Your task to perform on an android device: View the shopping cart on amazon.com. Add "usb-c to usb-b" to the cart on amazon.com, then select checkout. Image 0: 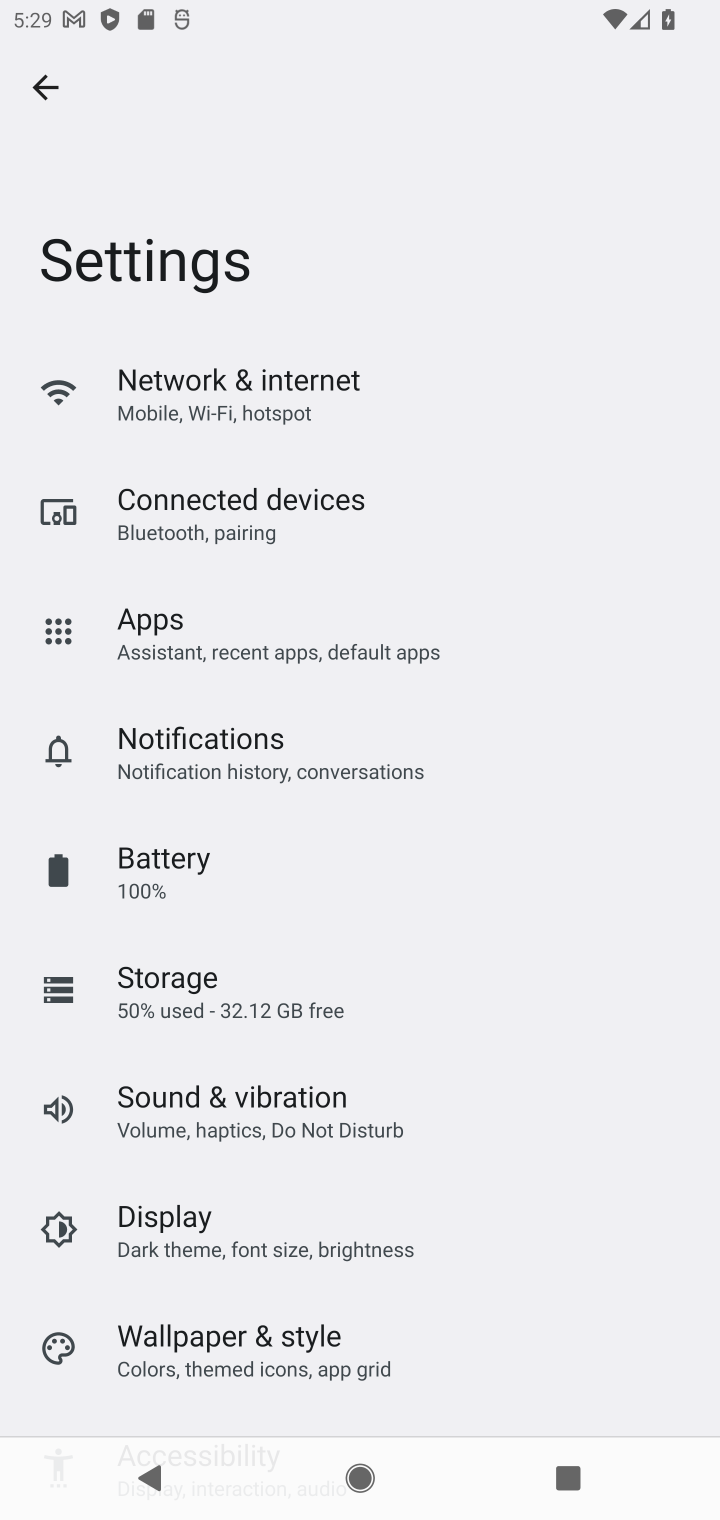
Step 0: press home button
Your task to perform on an android device: View the shopping cart on amazon.com. Add "usb-c to usb-b" to the cart on amazon.com, then select checkout. Image 1: 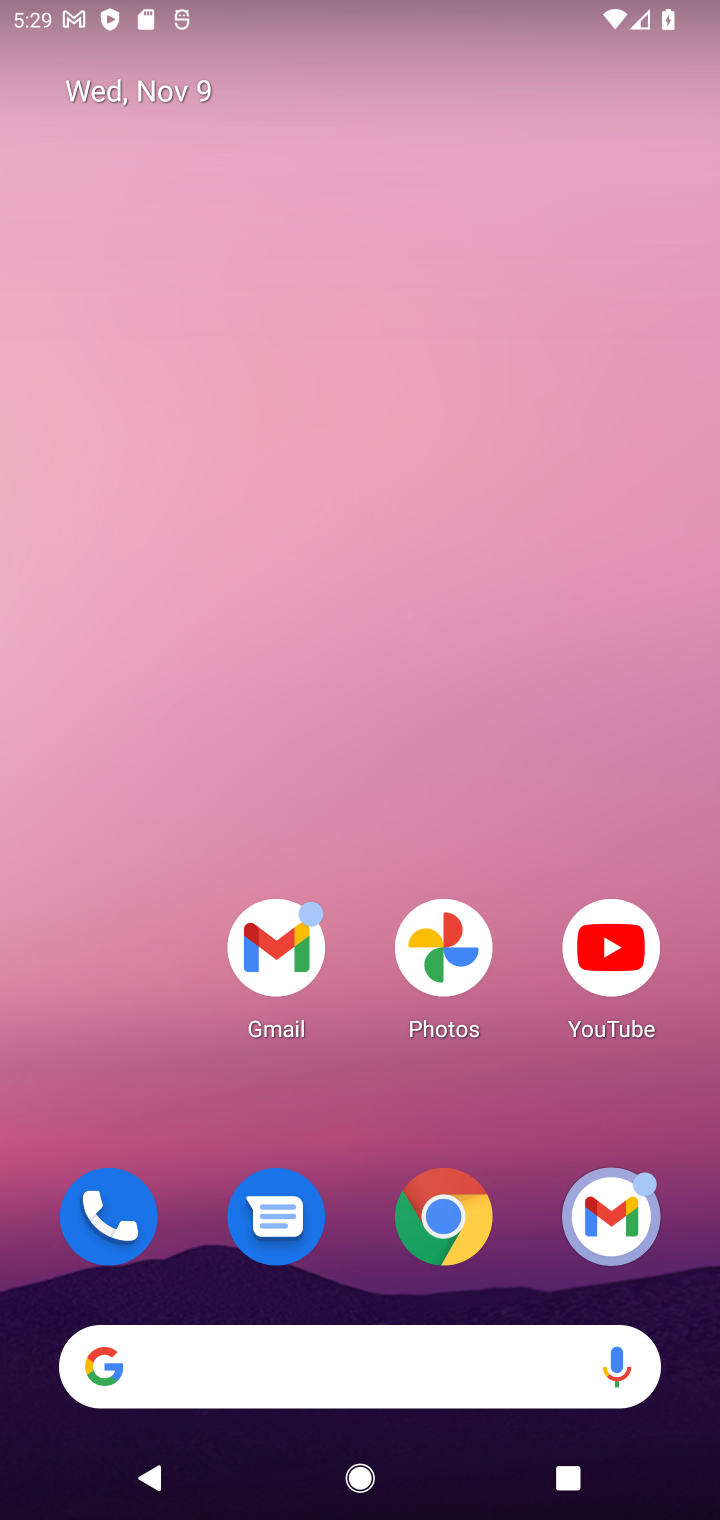
Step 1: drag from (353, 1260) to (399, 222)
Your task to perform on an android device: View the shopping cart on amazon.com. Add "usb-c to usb-b" to the cart on amazon.com, then select checkout. Image 2: 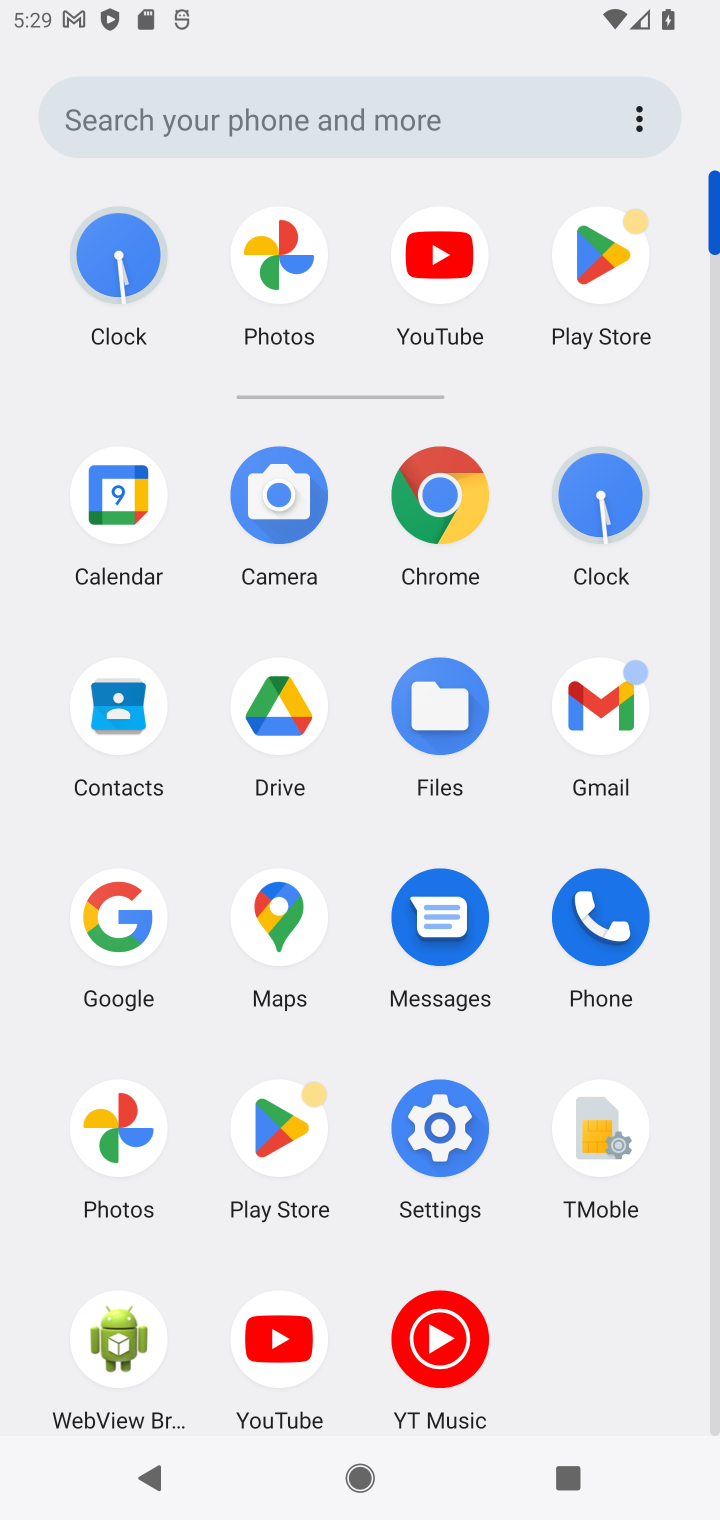
Step 2: click (446, 491)
Your task to perform on an android device: View the shopping cart on amazon.com. Add "usb-c to usb-b" to the cart on amazon.com, then select checkout. Image 3: 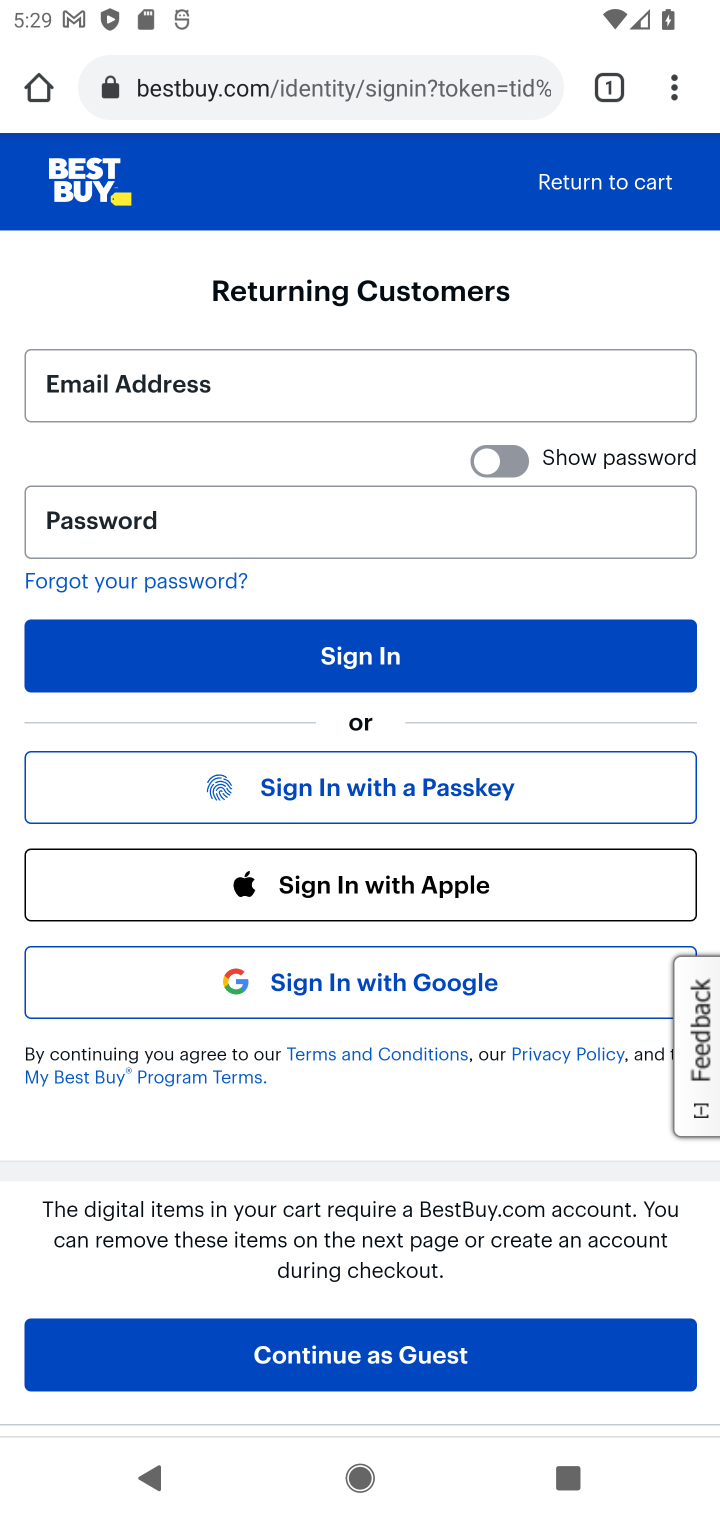
Step 3: click (328, 83)
Your task to perform on an android device: View the shopping cart on amazon.com. Add "usb-c to usb-b" to the cart on amazon.com, then select checkout. Image 4: 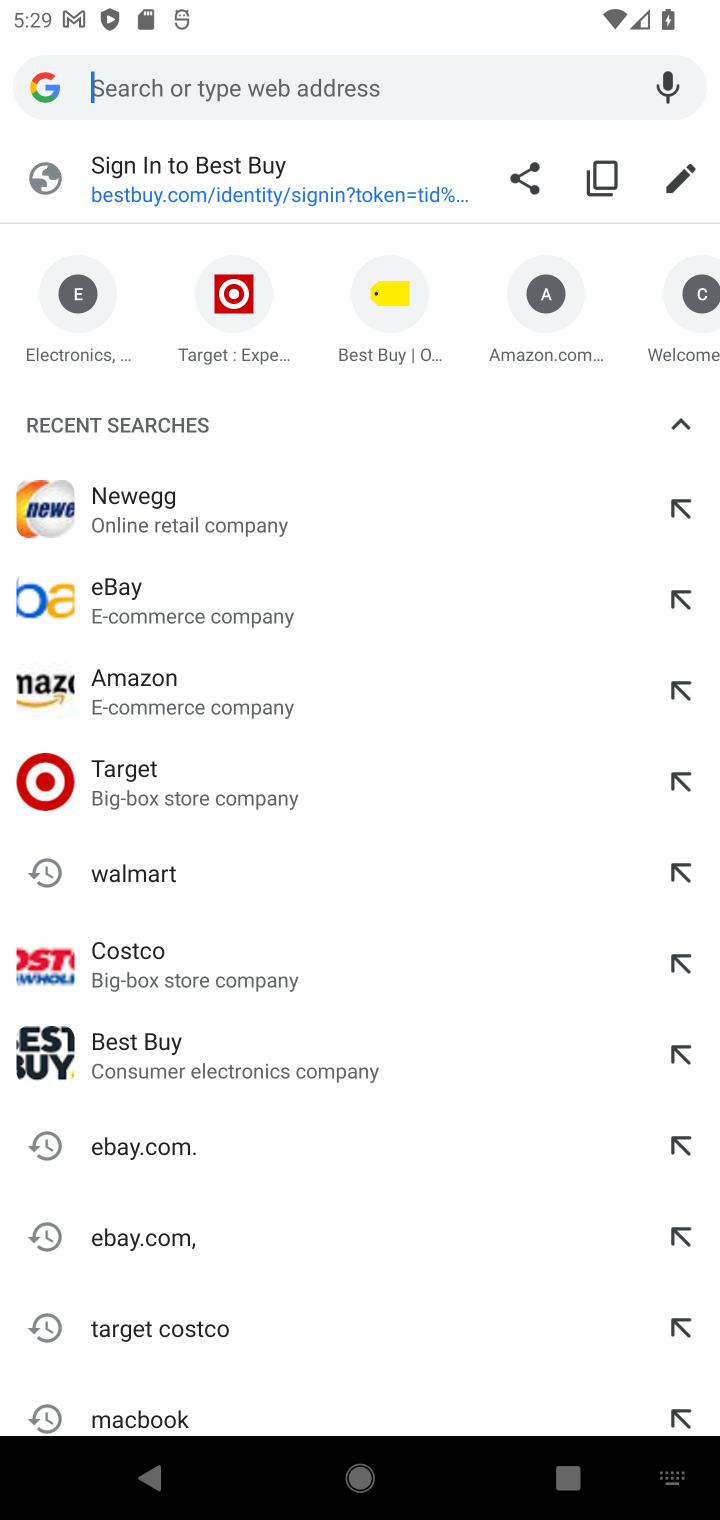
Step 4: type "amazon.com"
Your task to perform on an android device: View the shopping cart on amazon.com. Add "usb-c to usb-b" to the cart on amazon.com, then select checkout. Image 5: 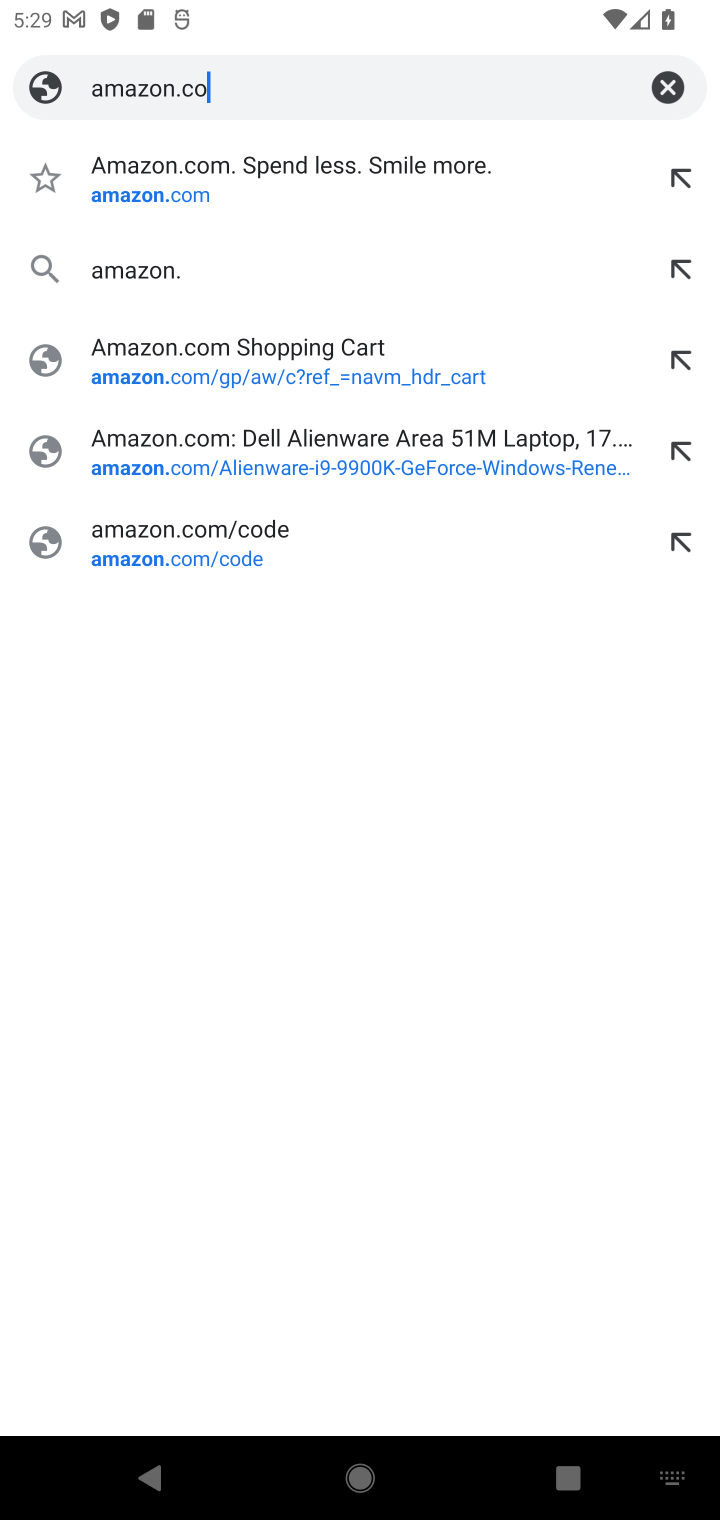
Step 5: press enter
Your task to perform on an android device: View the shopping cart on amazon.com. Add "usb-c to usb-b" to the cart on amazon.com, then select checkout. Image 6: 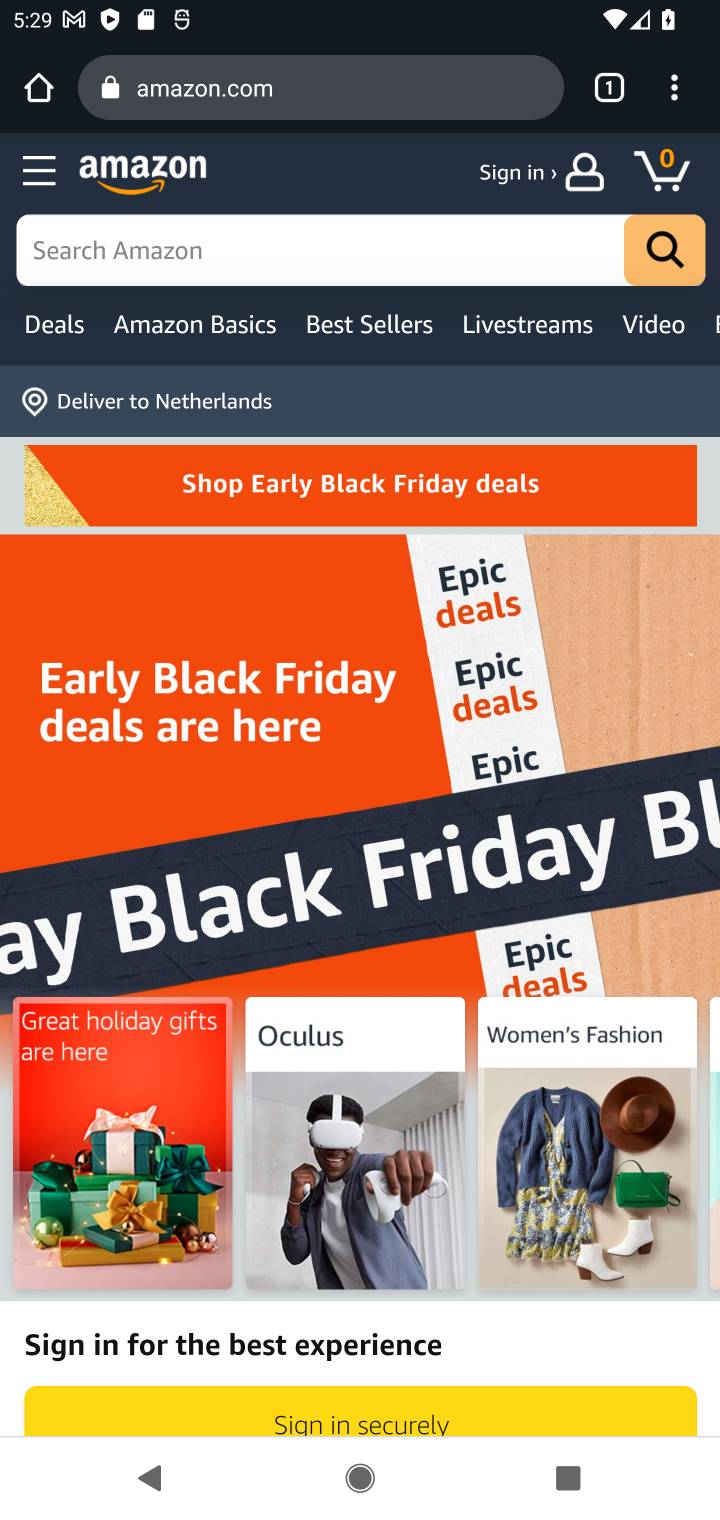
Step 6: click (659, 161)
Your task to perform on an android device: View the shopping cart on amazon.com. Add "usb-c to usb-b" to the cart on amazon.com, then select checkout. Image 7: 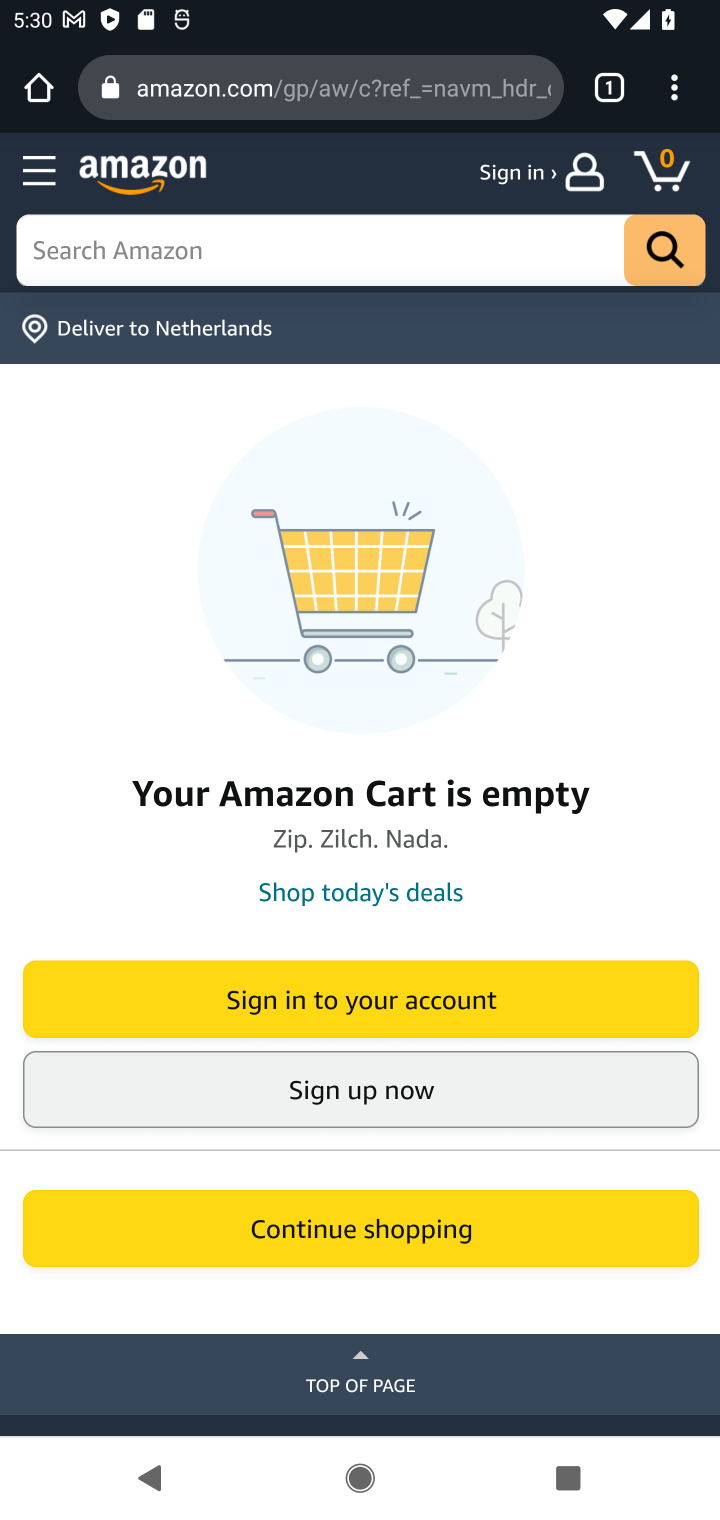
Step 7: click (453, 238)
Your task to perform on an android device: View the shopping cart on amazon.com. Add "usb-c to usb-b" to the cart on amazon.com, then select checkout. Image 8: 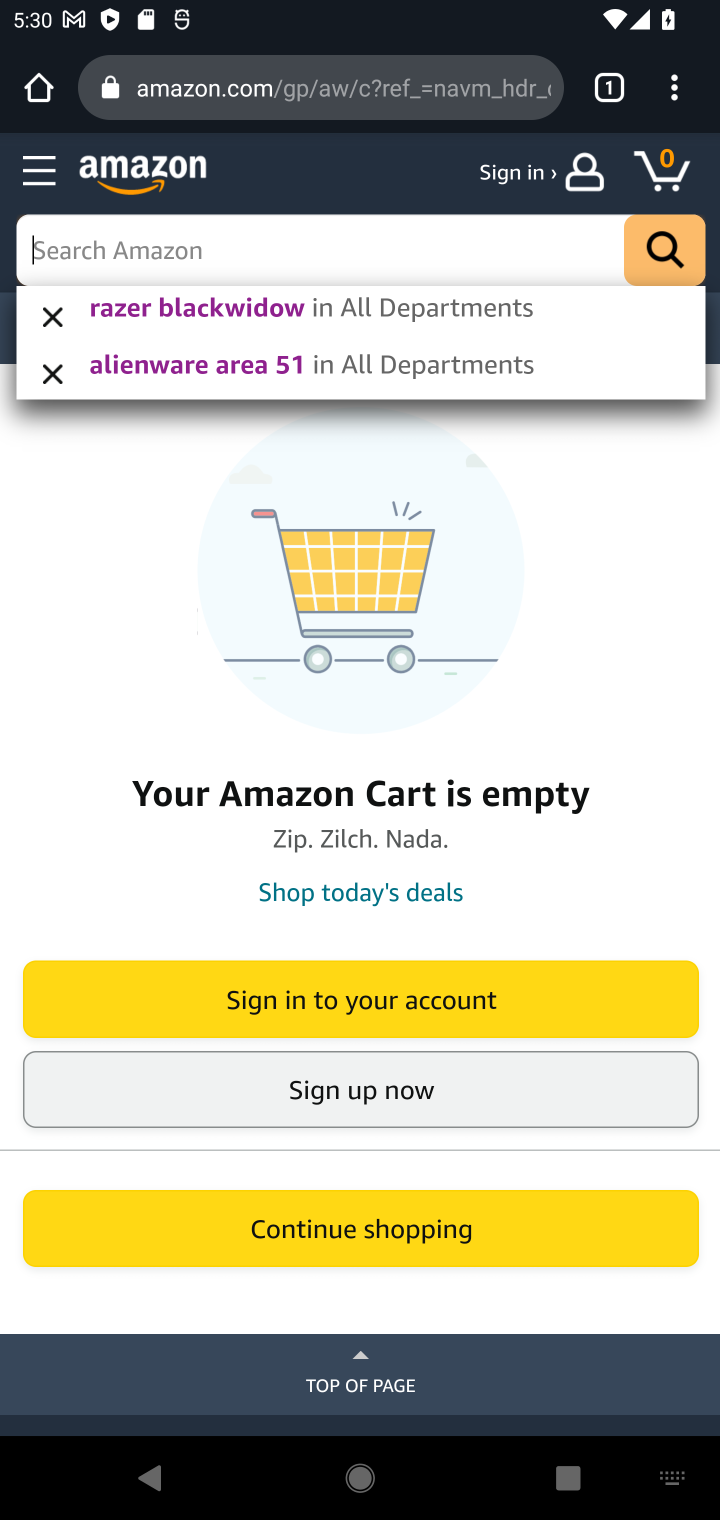
Step 8: type "usb-c to usb-b"
Your task to perform on an android device: View the shopping cart on amazon.com. Add "usb-c to usb-b" to the cart on amazon.com, then select checkout. Image 9: 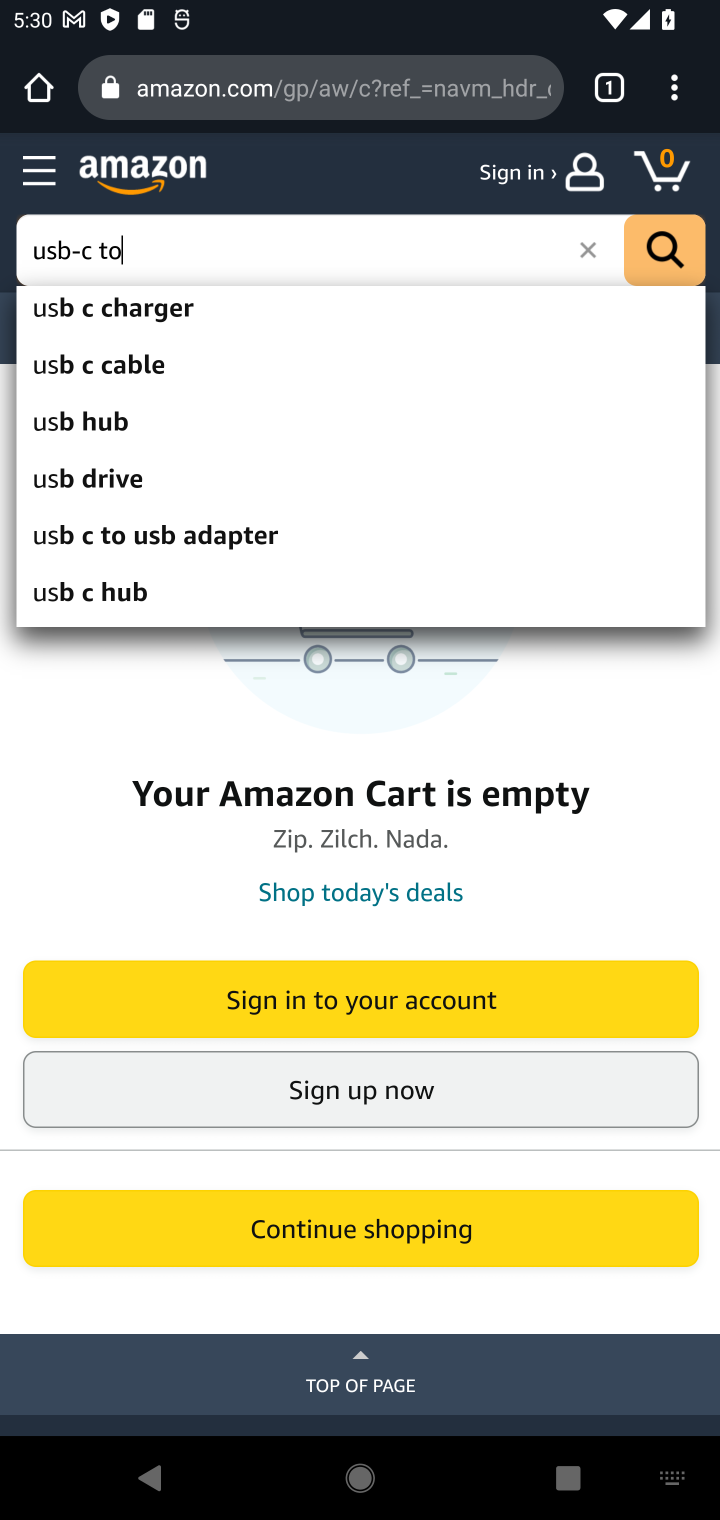
Step 9: press enter
Your task to perform on an android device: View the shopping cart on amazon.com. Add "usb-c to usb-b" to the cart on amazon.com, then select checkout. Image 10: 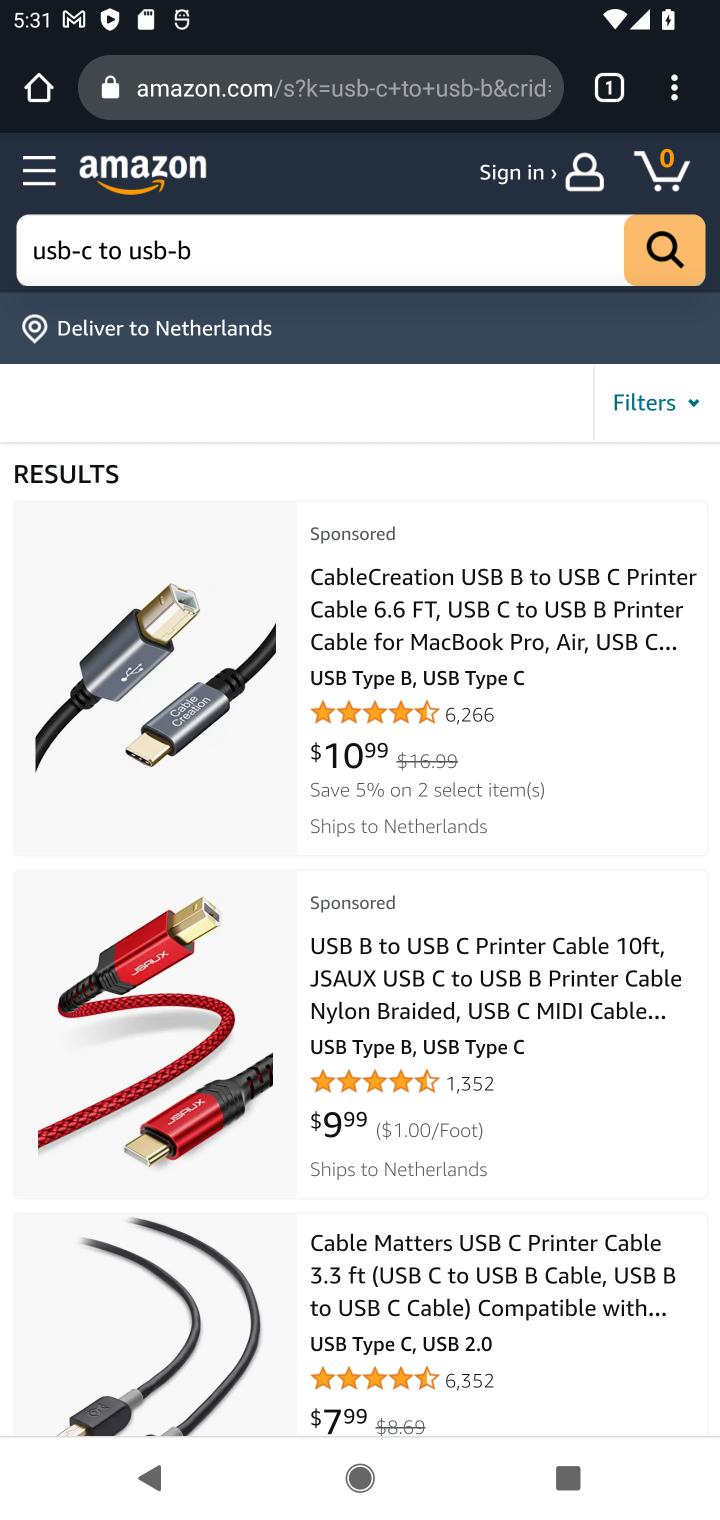
Step 10: click (491, 1275)
Your task to perform on an android device: View the shopping cart on amazon.com. Add "usb-c to usb-b" to the cart on amazon.com, then select checkout. Image 11: 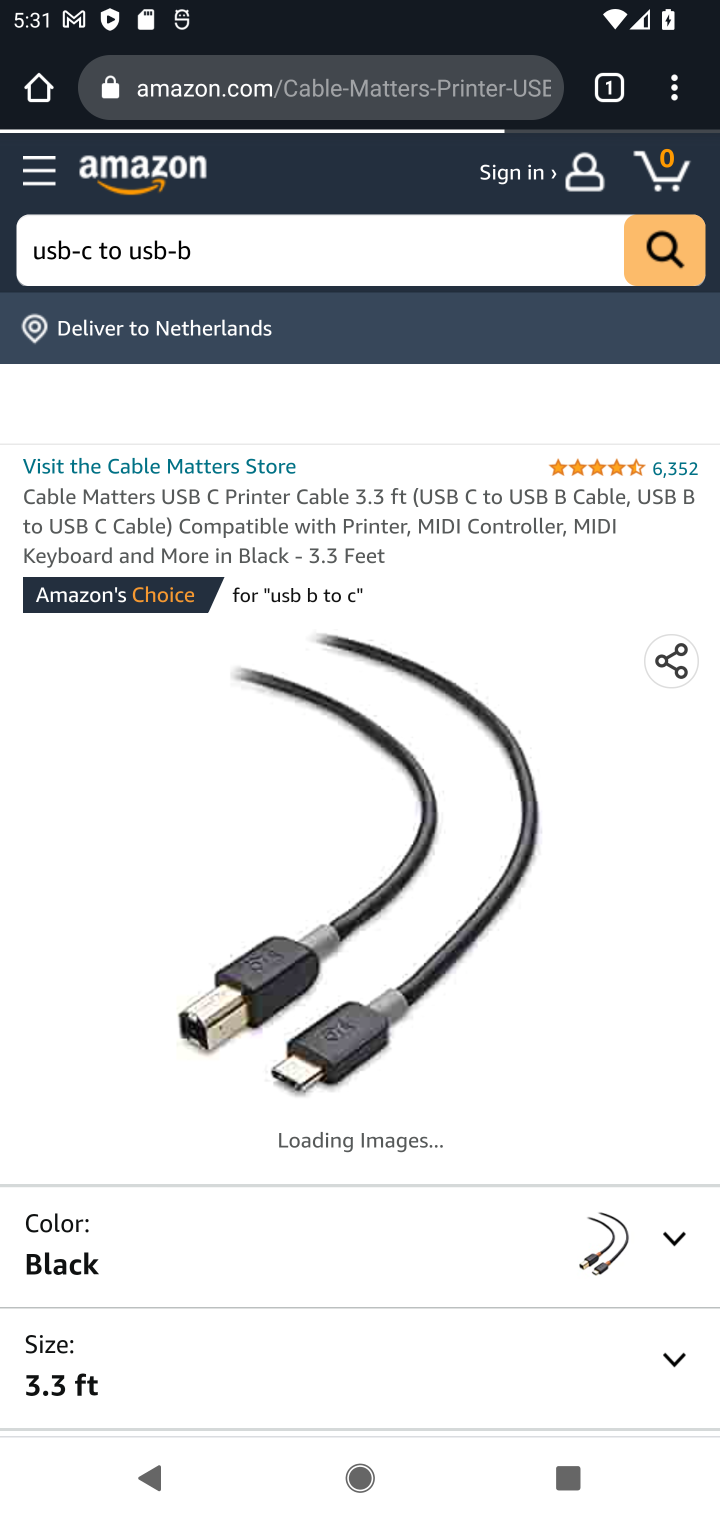
Step 11: click (680, 159)
Your task to perform on an android device: View the shopping cart on amazon.com. Add "usb-c to usb-b" to the cart on amazon.com, then select checkout. Image 12: 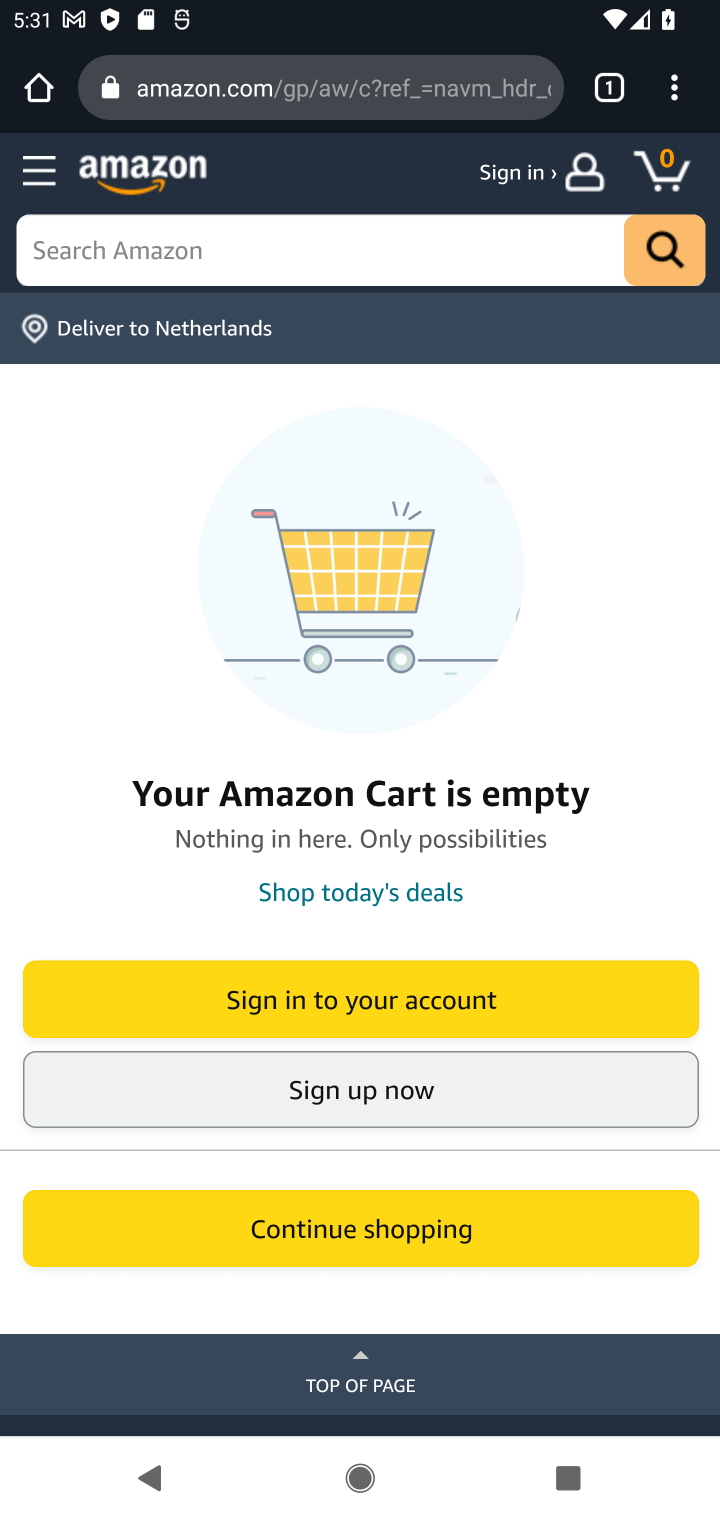
Step 12: click (222, 266)
Your task to perform on an android device: View the shopping cart on amazon.com. Add "usb-c to usb-b" to the cart on amazon.com, then select checkout. Image 13: 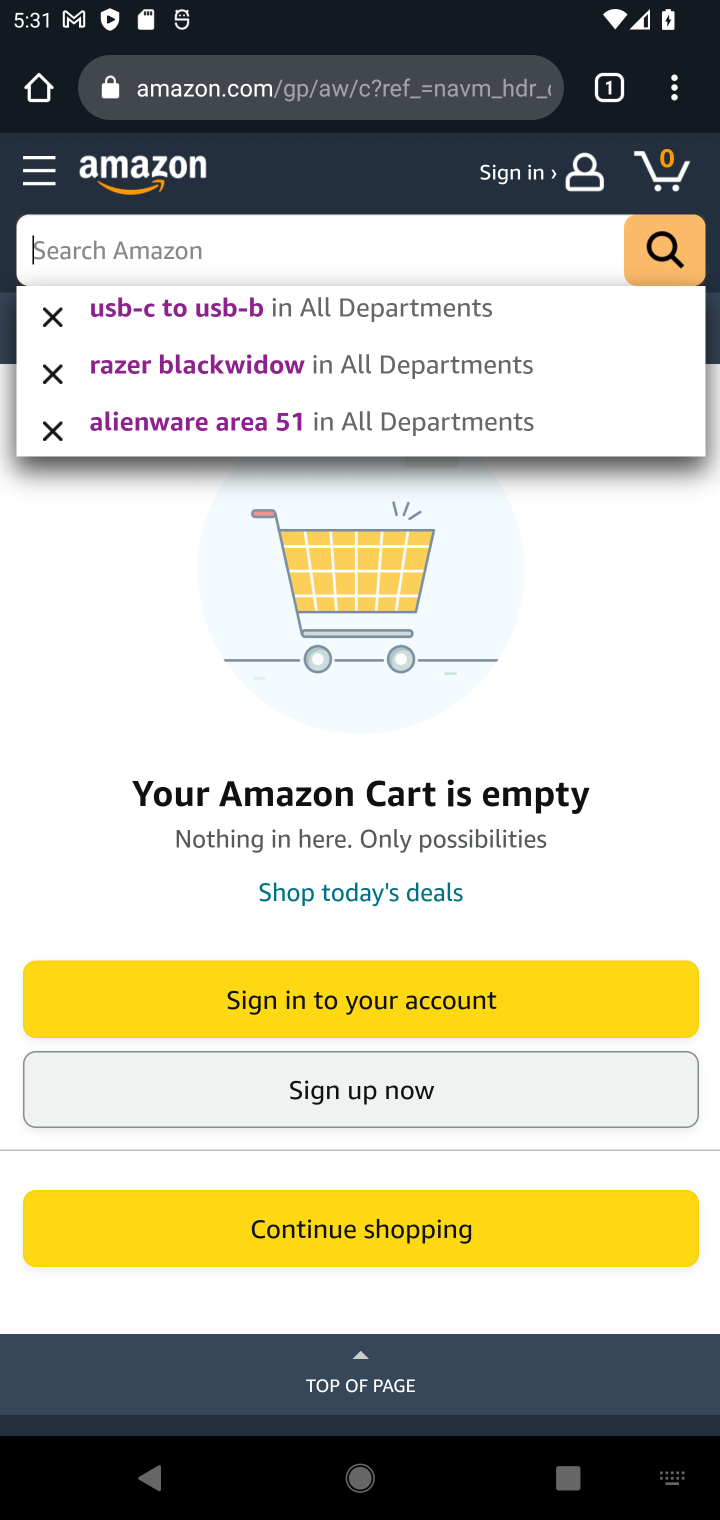
Step 13: type "usb-c to usb-b"
Your task to perform on an android device: View the shopping cart on amazon.com. Add "usb-c to usb-b" to the cart on amazon.com, then select checkout. Image 14: 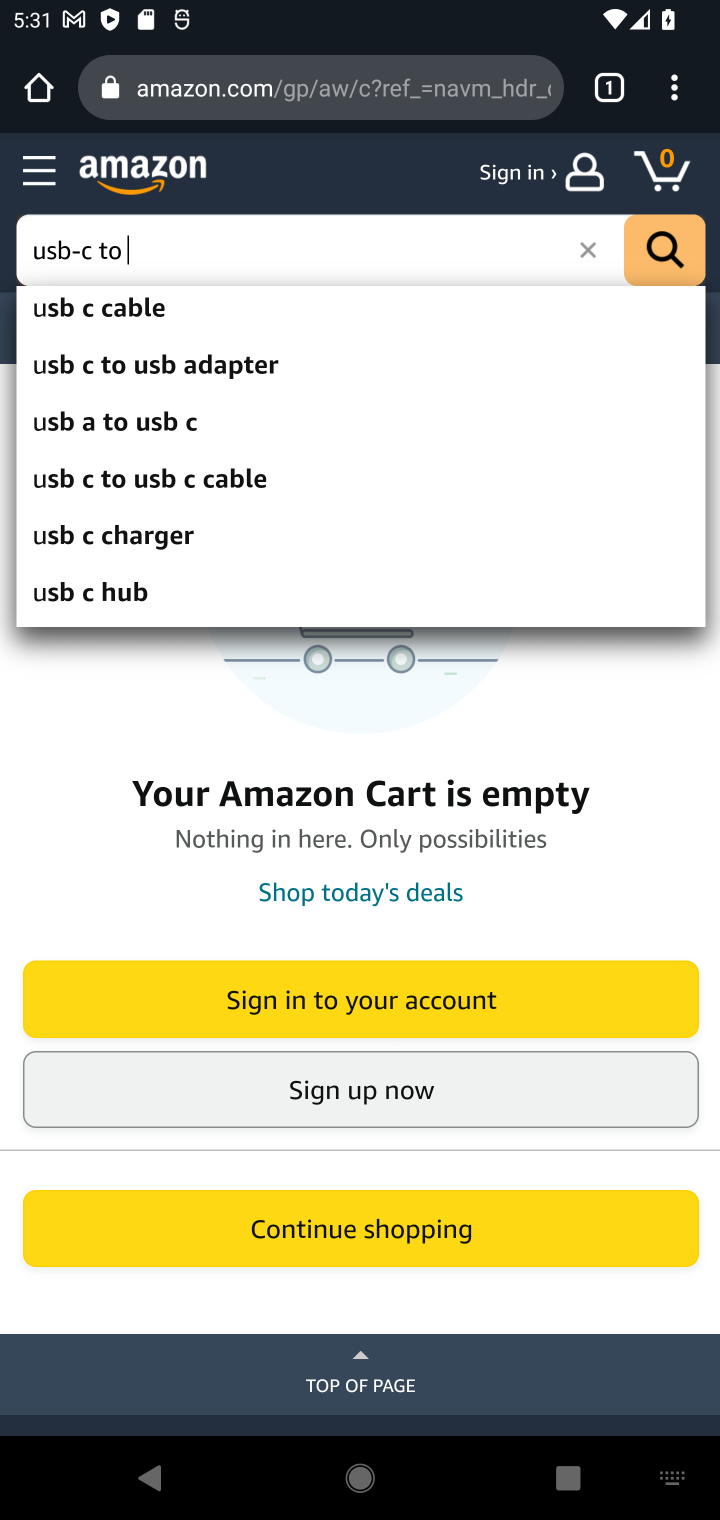
Step 14: press enter
Your task to perform on an android device: View the shopping cart on amazon.com. Add "usb-c to usb-b" to the cart on amazon.com, then select checkout. Image 15: 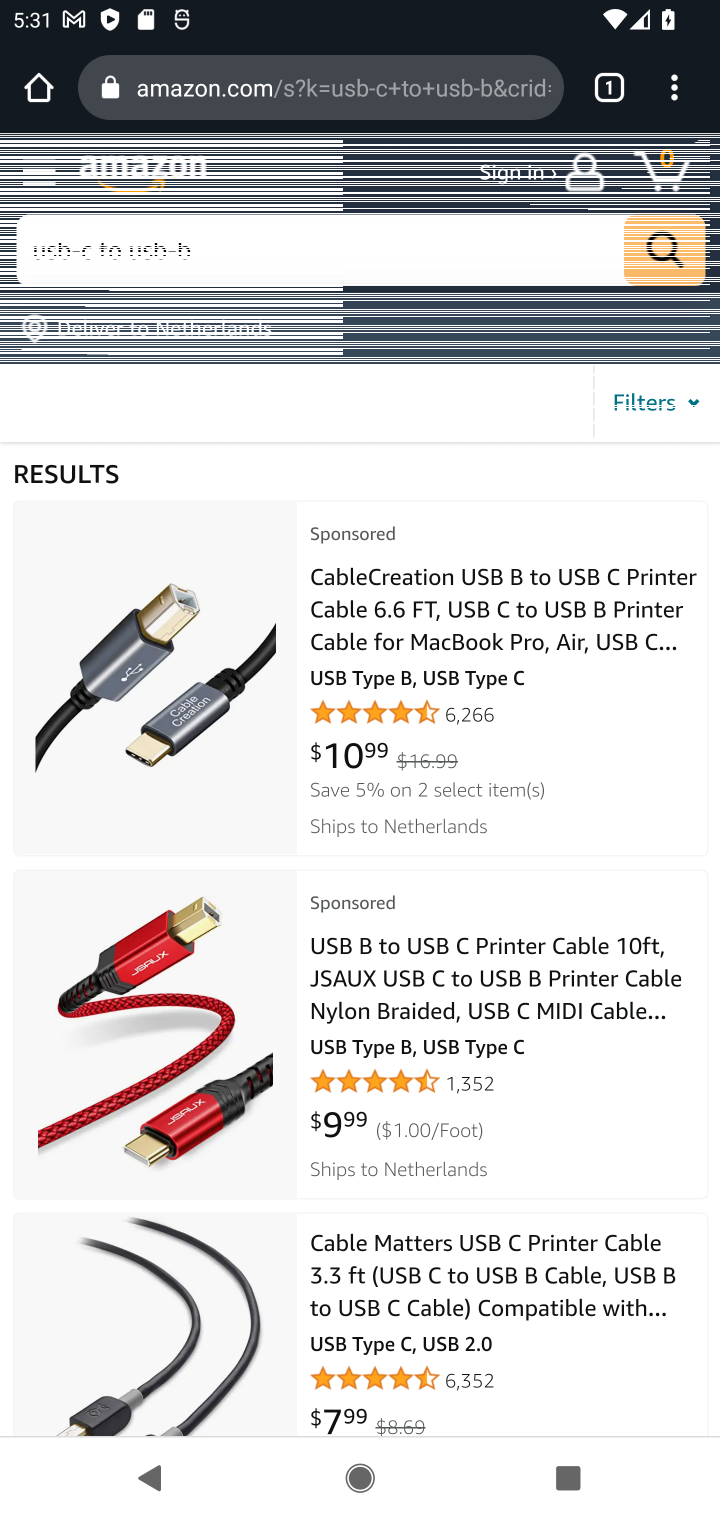
Step 15: drag from (502, 1210) to (575, 511)
Your task to perform on an android device: View the shopping cart on amazon.com. Add "usb-c to usb-b" to the cart on amazon.com, then select checkout. Image 16: 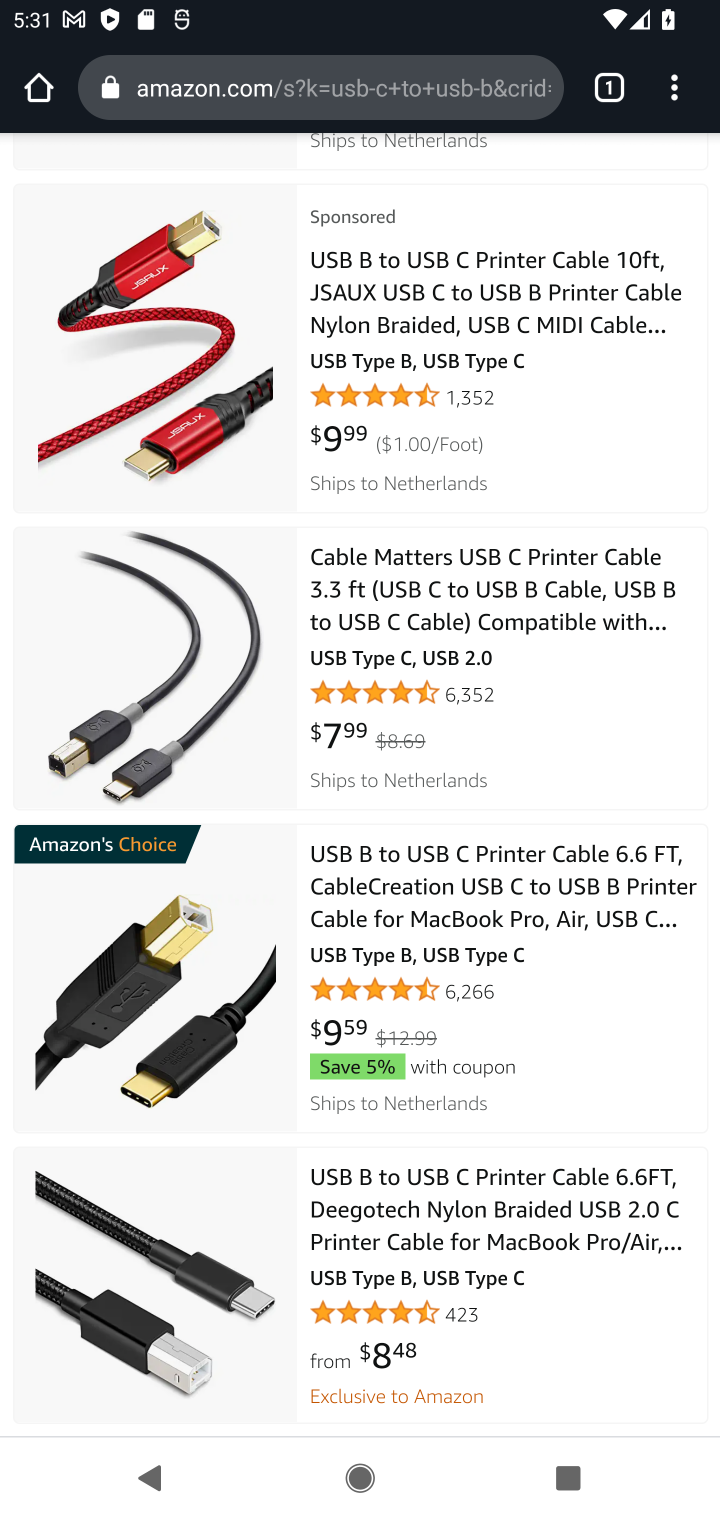
Step 16: drag from (538, 1088) to (563, 519)
Your task to perform on an android device: View the shopping cart on amazon.com. Add "usb-c to usb-b" to the cart on amazon.com, then select checkout. Image 17: 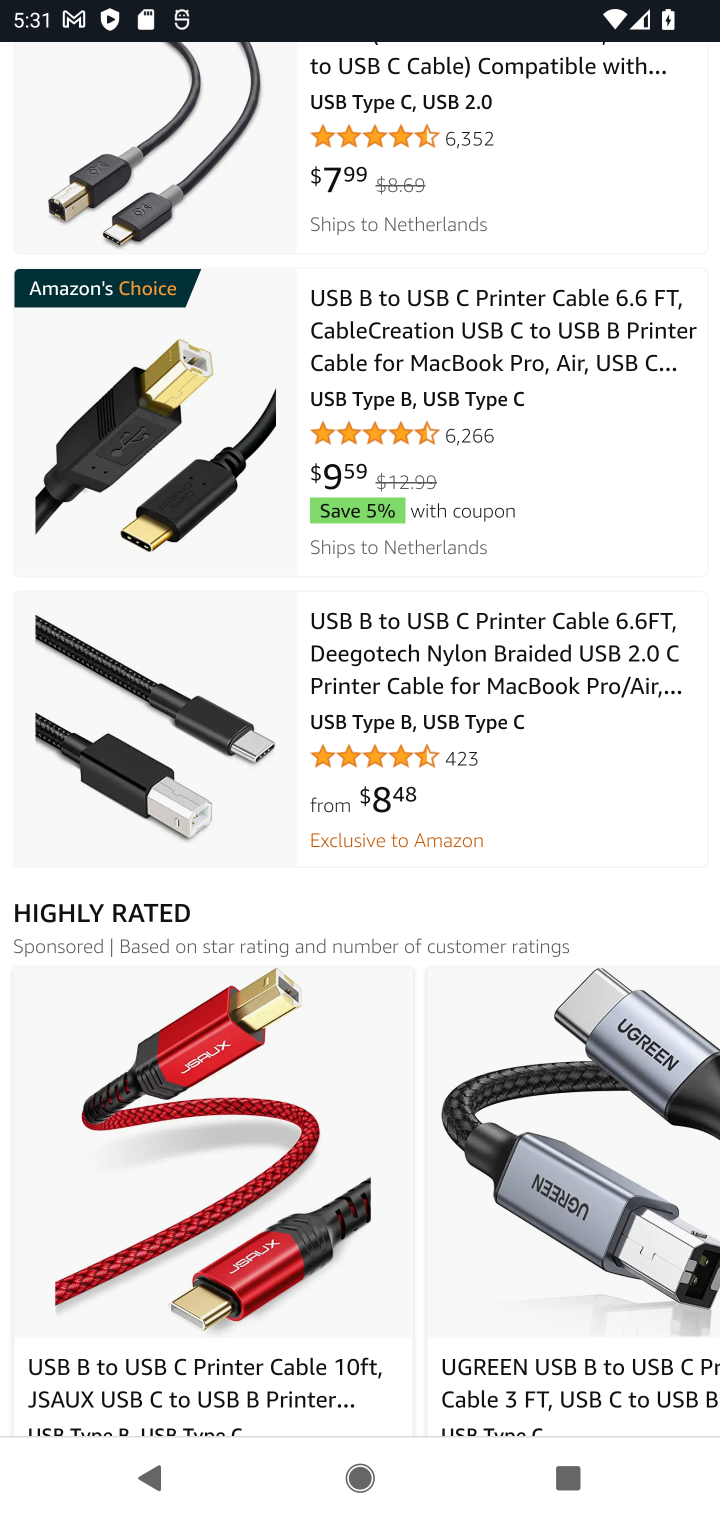
Step 17: drag from (405, 1093) to (448, 502)
Your task to perform on an android device: View the shopping cart on amazon.com. Add "usb-c to usb-b" to the cart on amazon.com, then select checkout. Image 18: 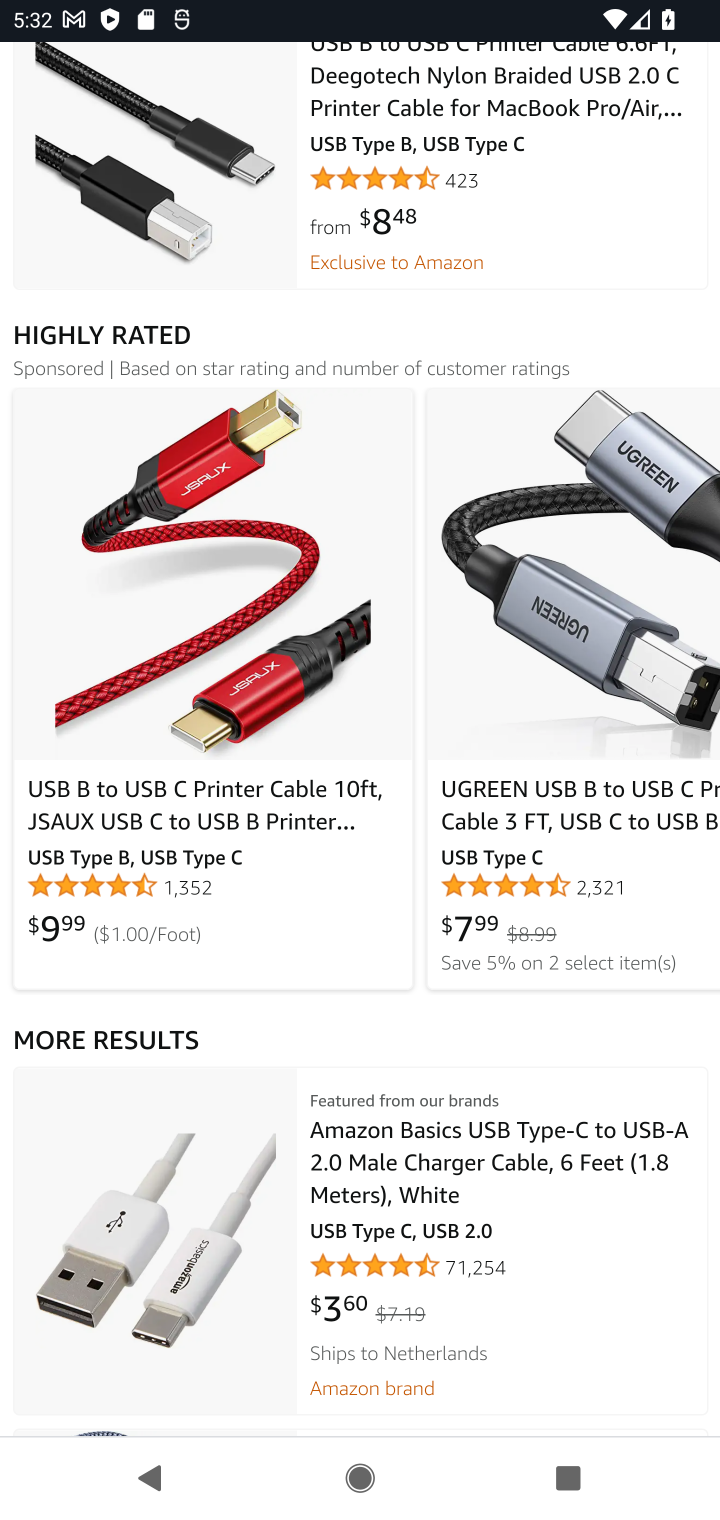
Step 18: drag from (498, 1270) to (534, 528)
Your task to perform on an android device: View the shopping cart on amazon.com. Add "usb-c to usb-b" to the cart on amazon.com, then select checkout. Image 19: 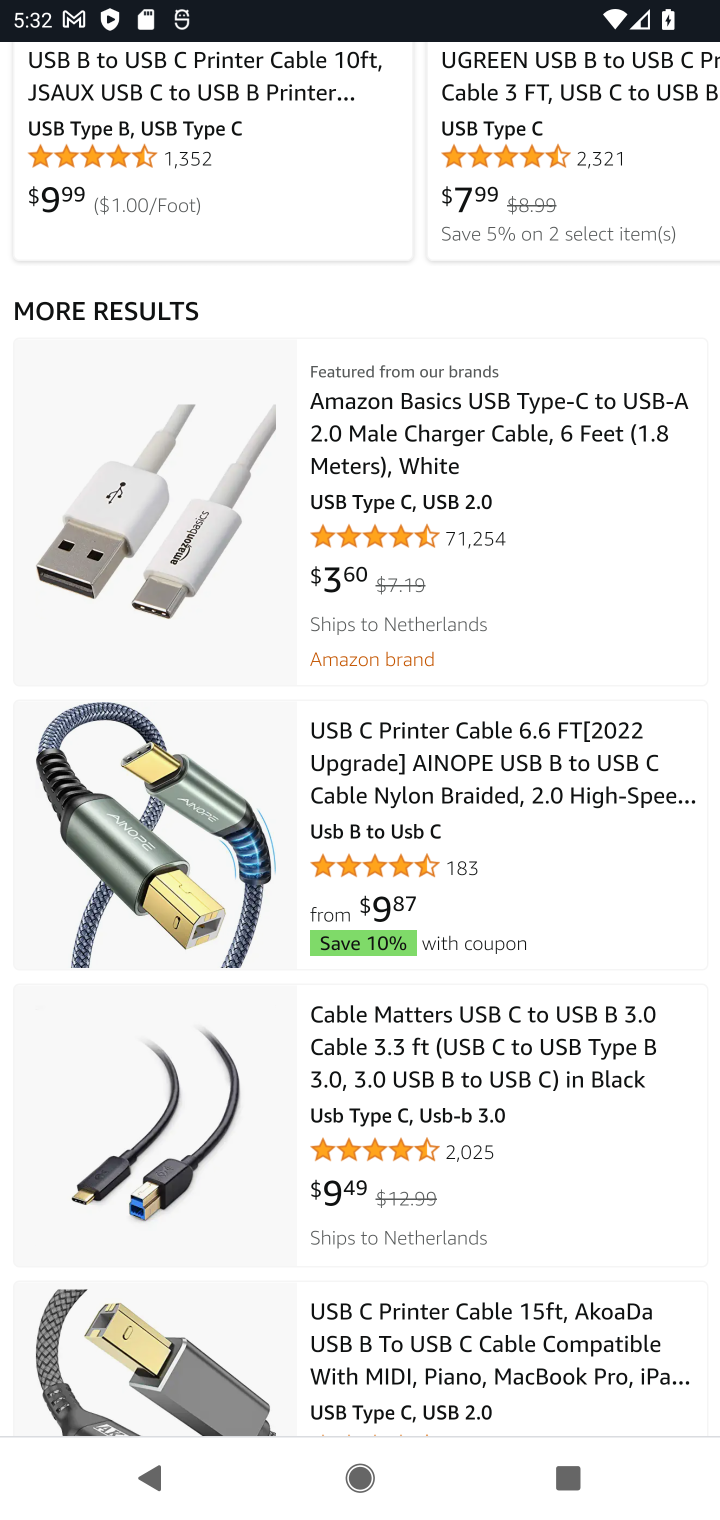
Step 19: drag from (528, 1341) to (518, 857)
Your task to perform on an android device: View the shopping cart on amazon.com. Add "usb-c to usb-b" to the cart on amazon.com, then select checkout. Image 20: 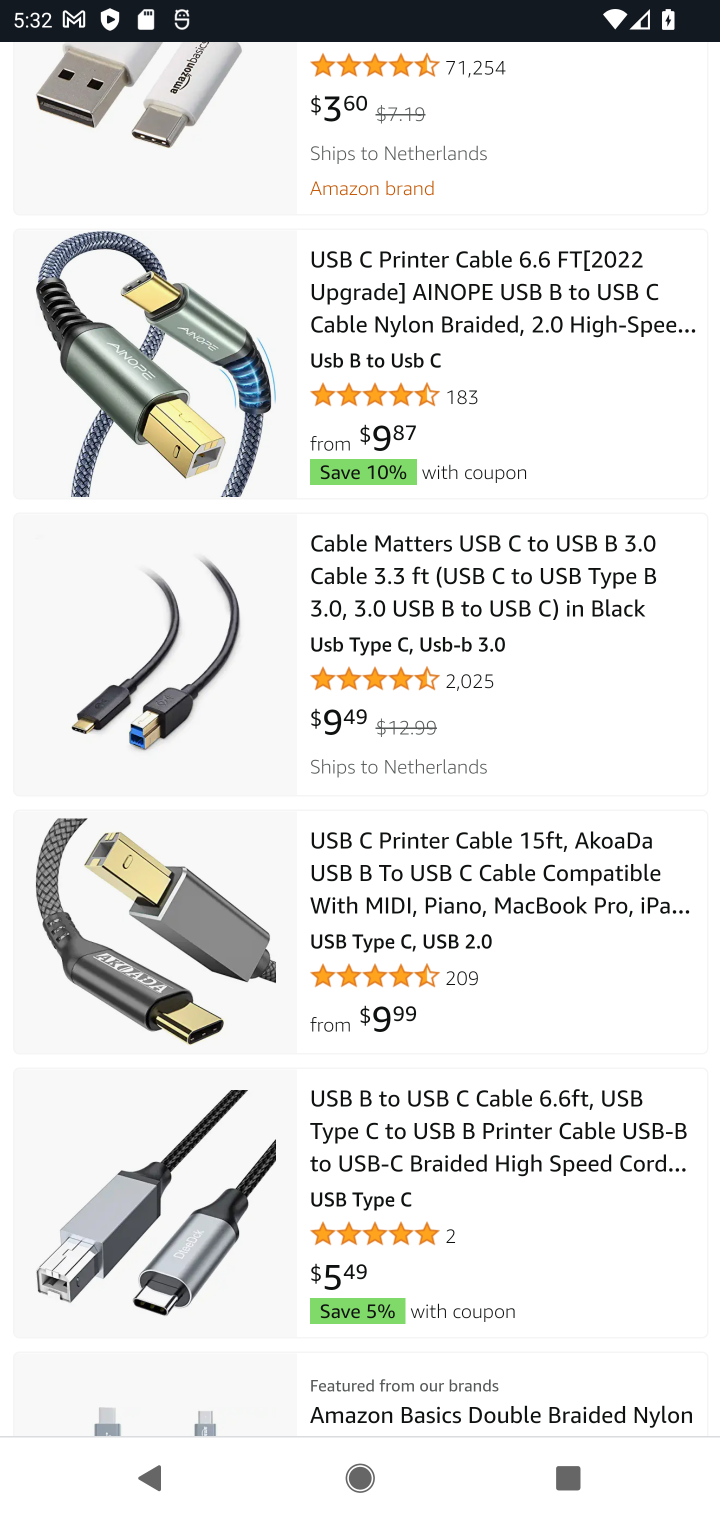
Step 20: click (478, 1130)
Your task to perform on an android device: View the shopping cart on amazon.com. Add "usb-c to usb-b" to the cart on amazon.com, then select checkout. Image 21: 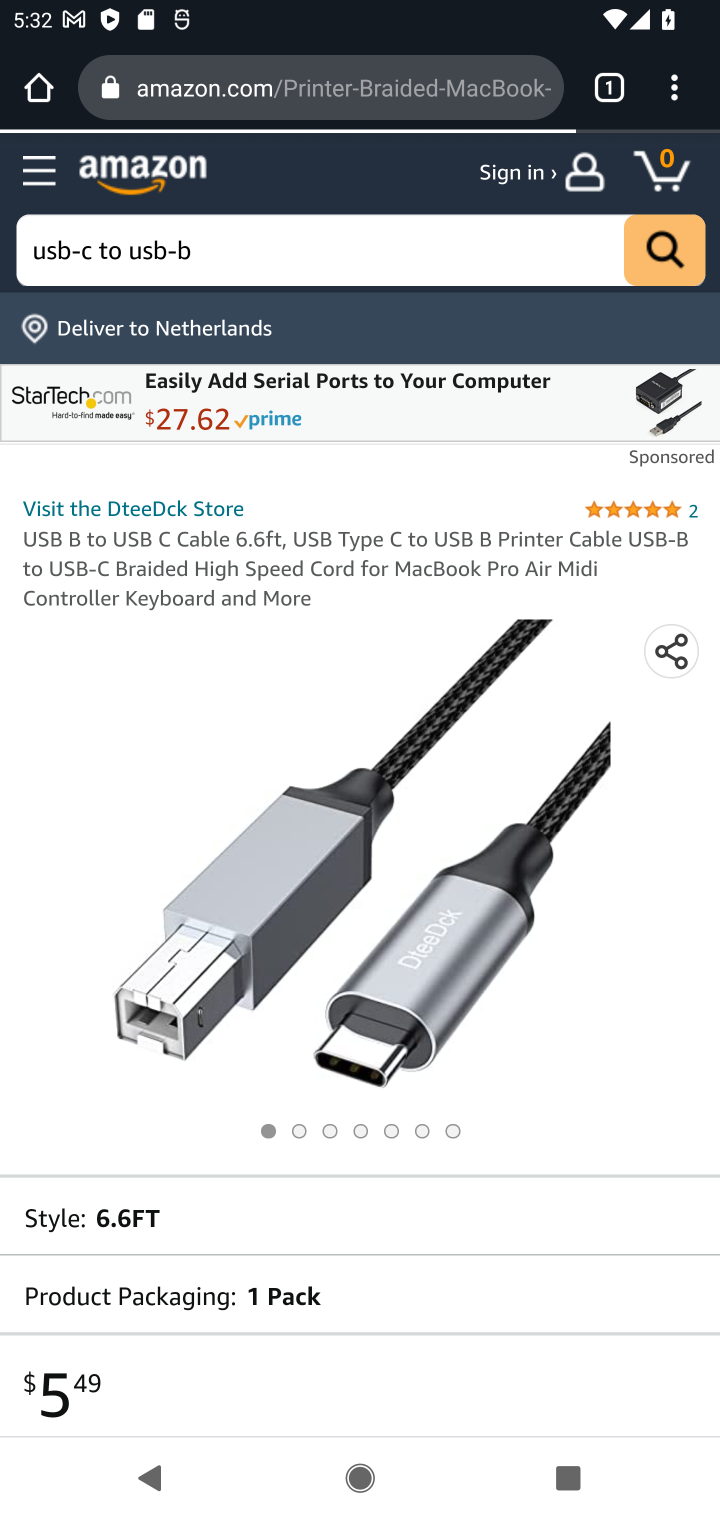
Step 21: drag from (364, 889) to (363, 588)
Your task to perform on an android device: View the shopping cart on amazon.com. Add "usb-c to usb-b" to the cart on amazon.com, then select checkout. Image 22: 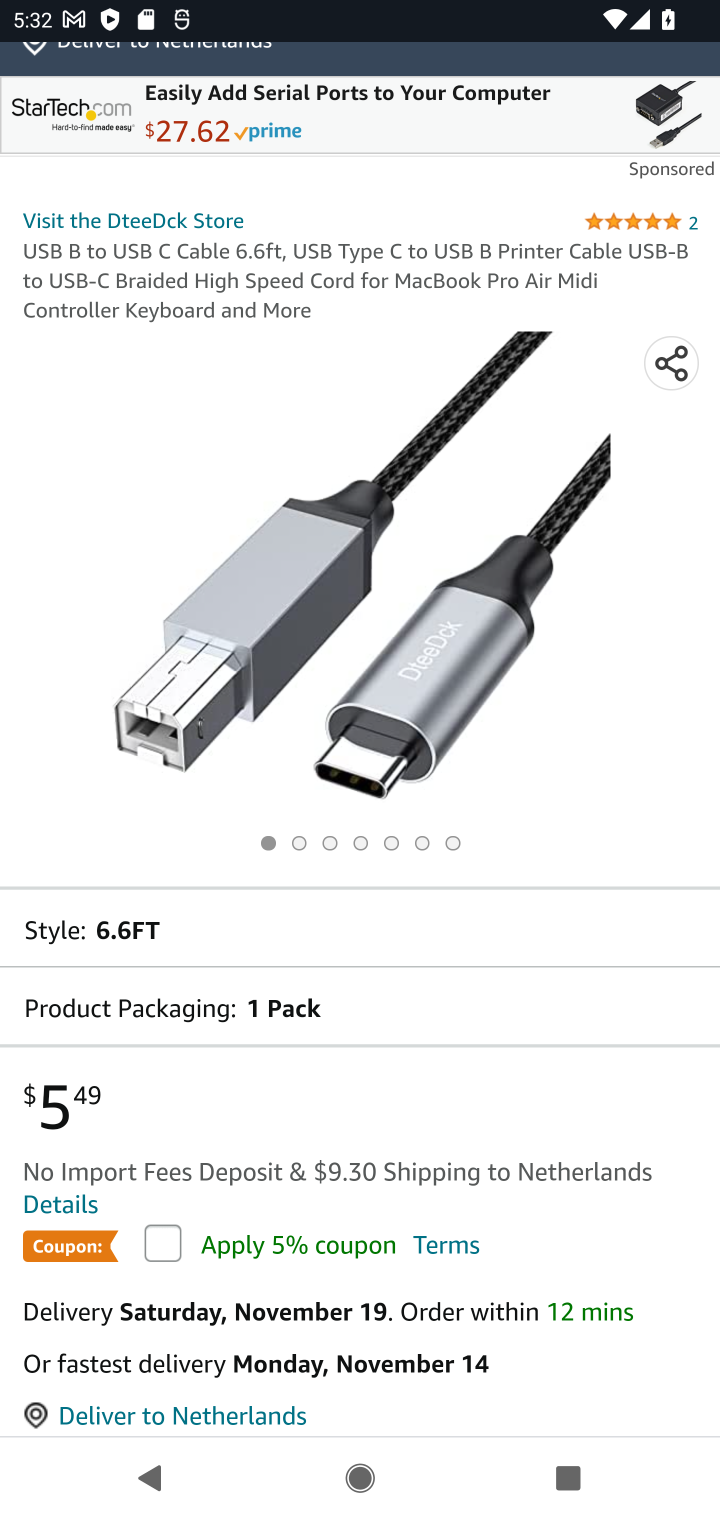
Step 22: press back button
Your task to perform on an android device: View the shopping cart on amazon.com. Add "usb-c to usb-b" to the cart on amazon.com, then select checkout. Image 23: 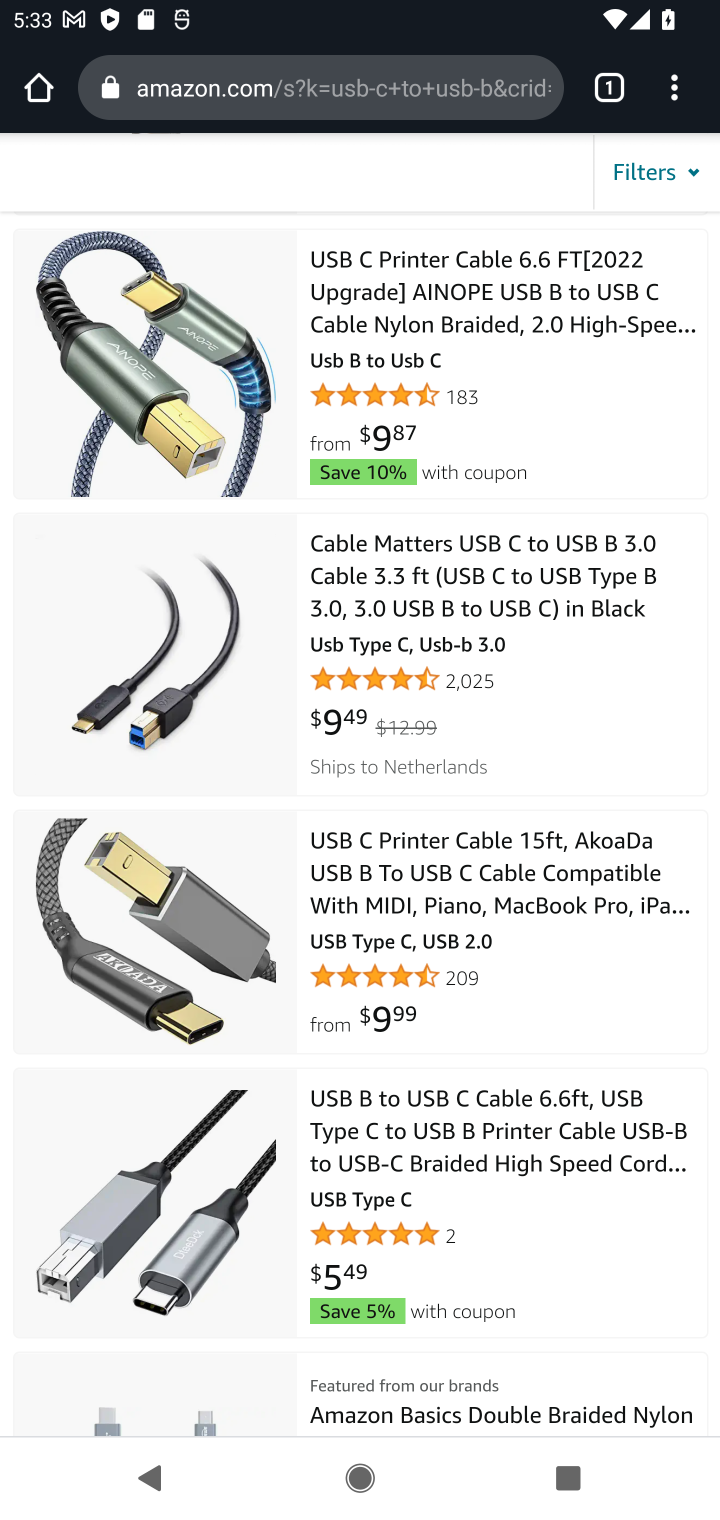
Step 23: drag from (406, 356) to (470, 1138)
Your task to perform on an android device: View the shopping cart on amazon.com. Add "usb-c to usb-b" to the cart on amazon.com, then select checkout. Image 24: 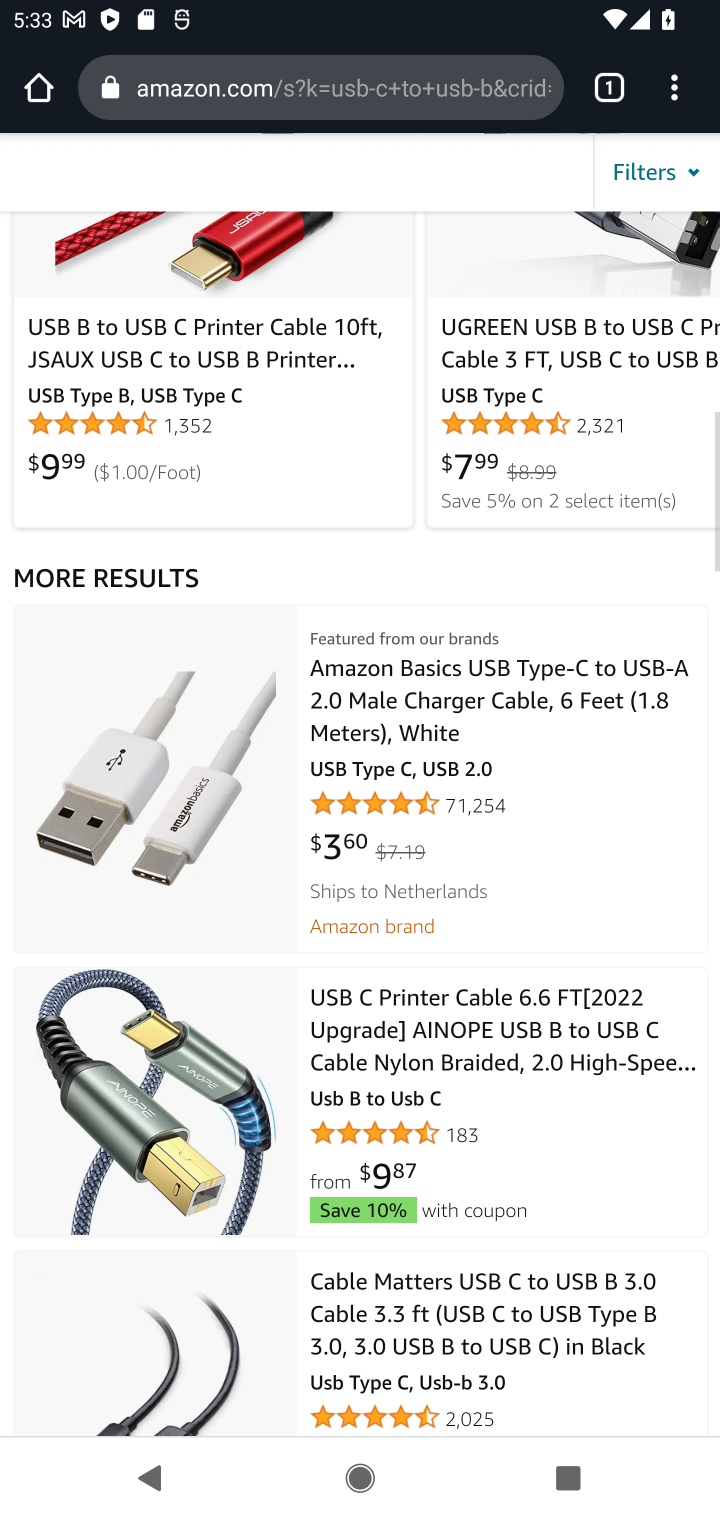
Step 24: drag from (520, 497) to (503, 1174)
Your task to perform on an android device: View the shopping cart on amazon.com. Add "usb-c to usb-b" to the cart on amazon.com, then select checkout. Image 25: 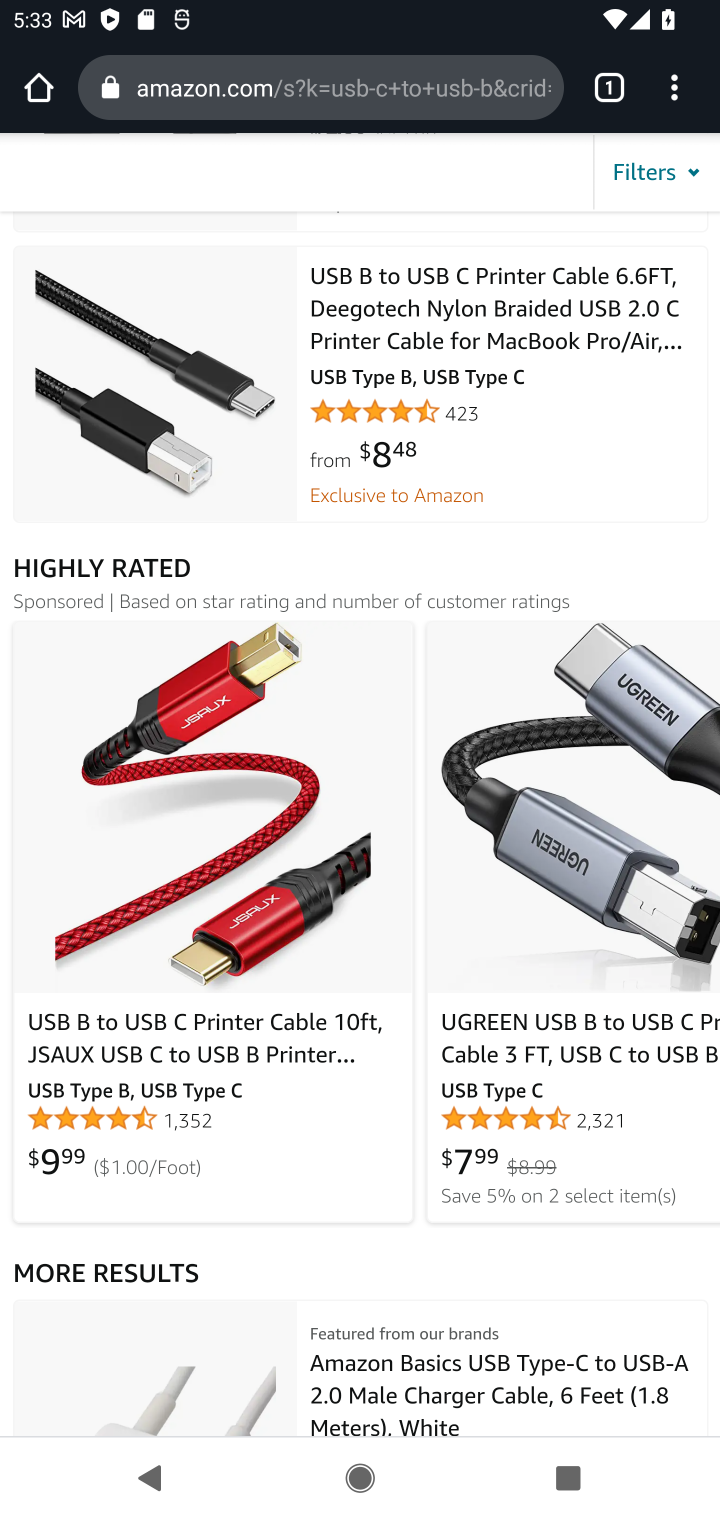
Step 25: drag from (230, 295) to (338, 1198)
Your task to perform on an android device: View the shopping cart on amazon.com. Add "usb-c to usb-b" to the cart on amazon.com, then select checkout. Image 26: 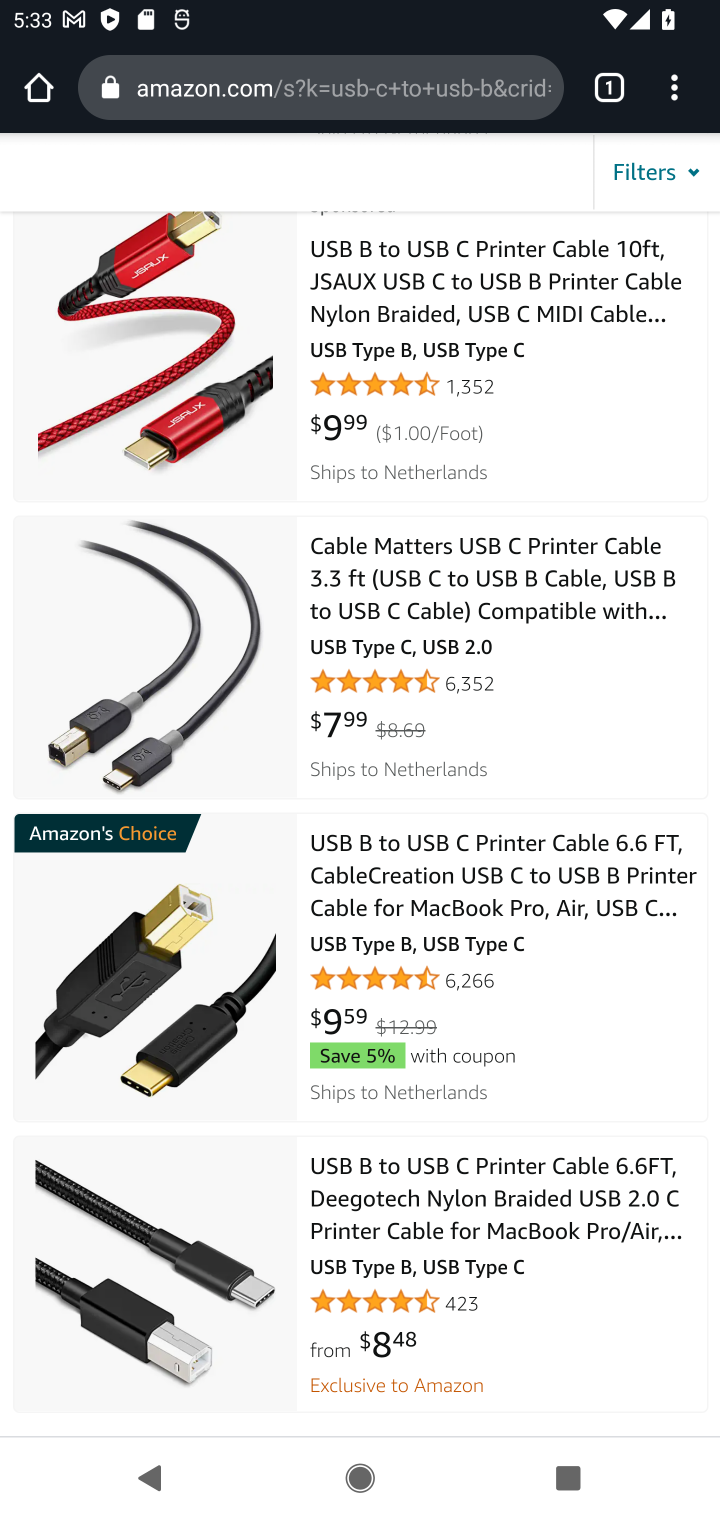
Step 26: drag from (386, 317) to (515, 925)
Your task to perform on an android device: View the shopping cart on amazon.com. Add "usb-c to usb-b" to the cart on amazon.com, then select checkout. Image 27: 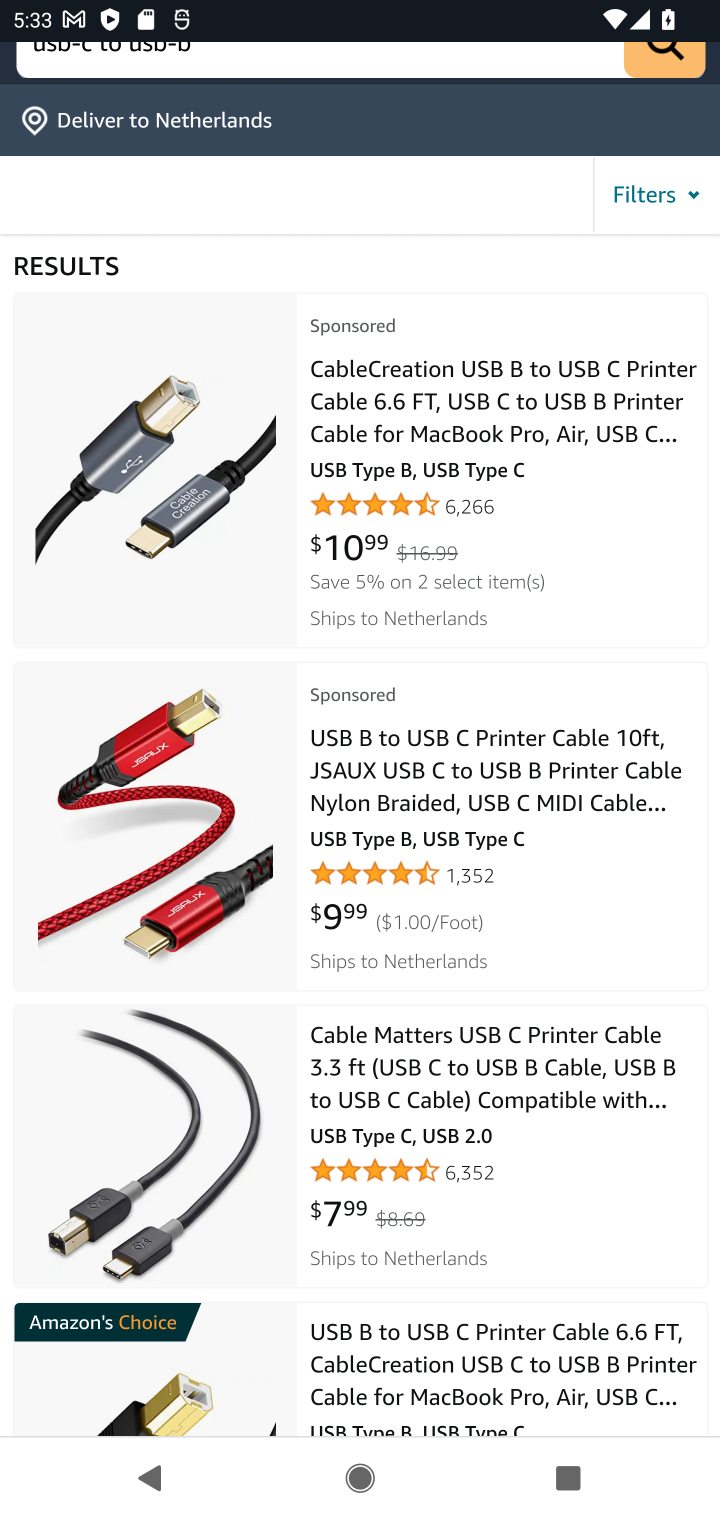
Step 27: click (211, 1100)
Your task to perform on an android device: View the shopping cart on amazon.com. Add "usb-c to usb-b" to the cart on amazon.com, then select checkout. Image 28: 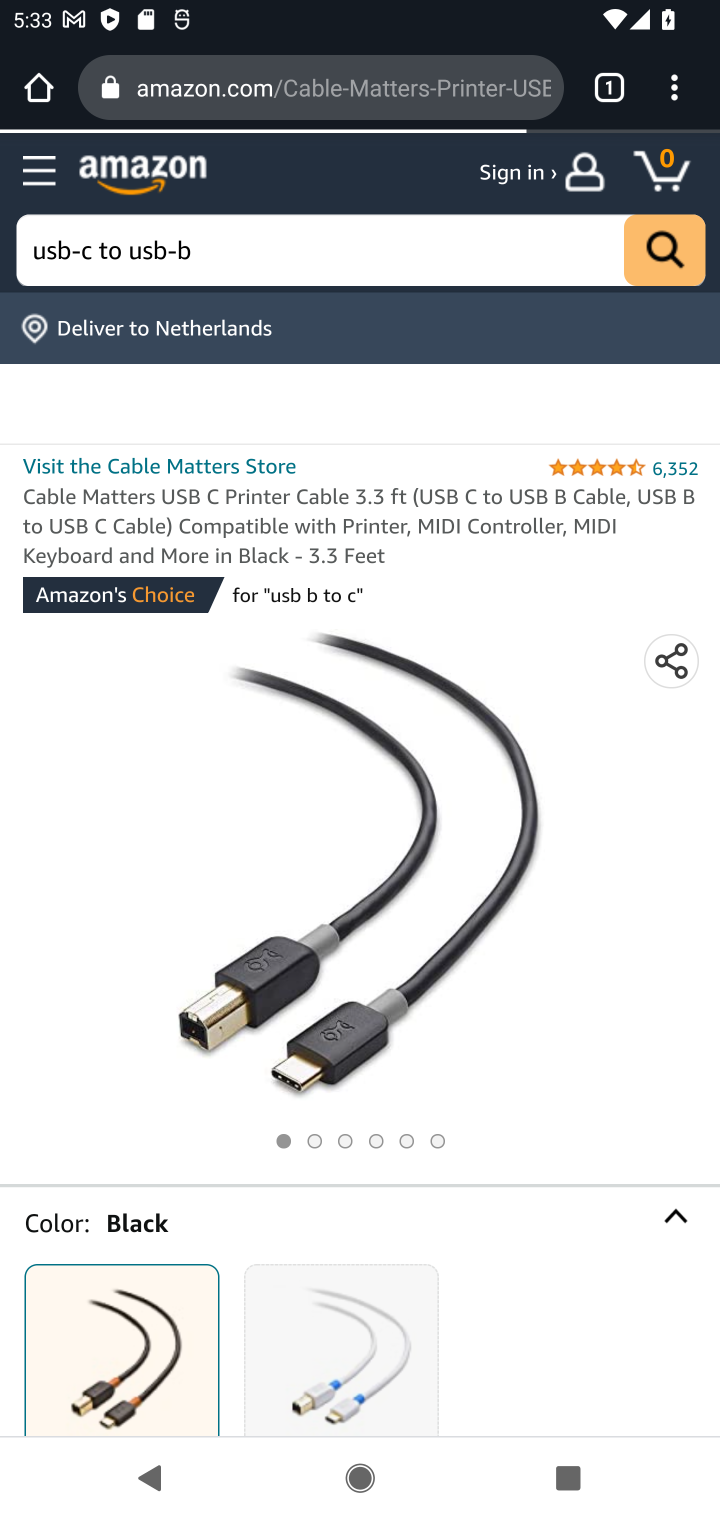
Step 28: drag from (410, 1205) to (504, 253)
Your task to perform on an android device: View the shopping cart on amazon.com. Add "usb-c to usb-b" to the cart on amazon.com, then select checkout. Image 29: 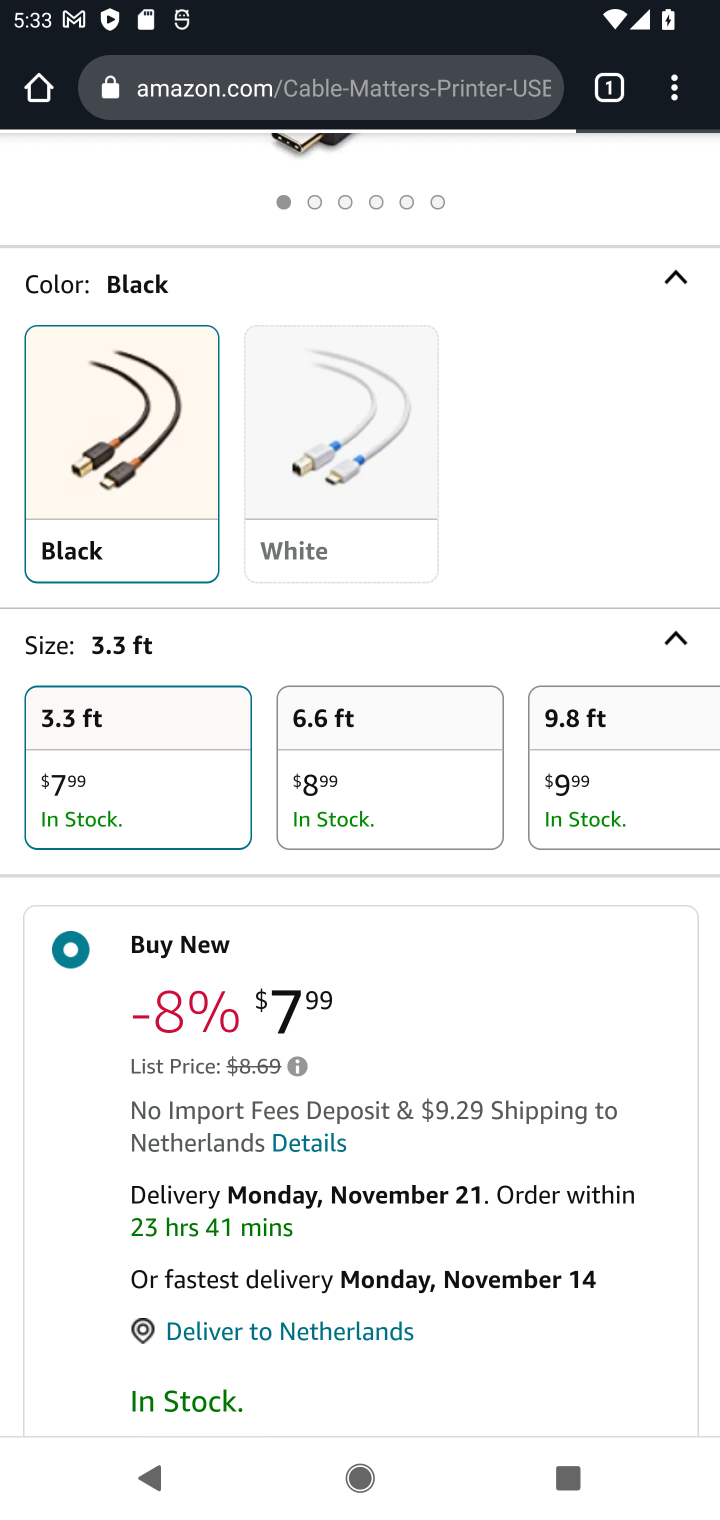
Step 29: drag from (401, 1221) to (456, 592)
Your task to perform on an android device: View the shopping cart on amazon.com. Add "usb-c to usb-b" to the cart on amazon.com, then select checkout. Image 30: 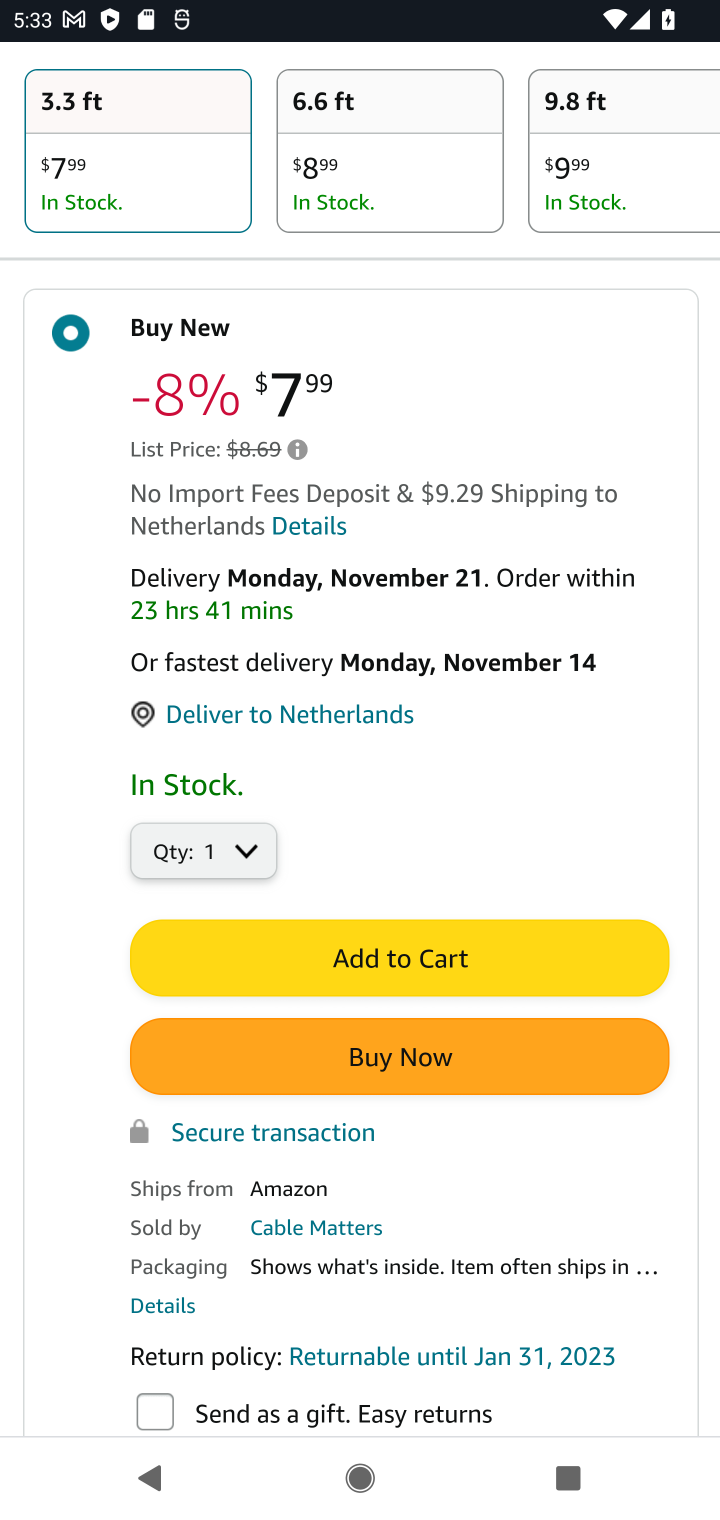
Step 30: click (325, 954)
Your task to perform on an android device: View the shopping cart on amazon.com. Add "usb-c to usb-b" to the cart on amazon.com, then select checkout. Image 31: 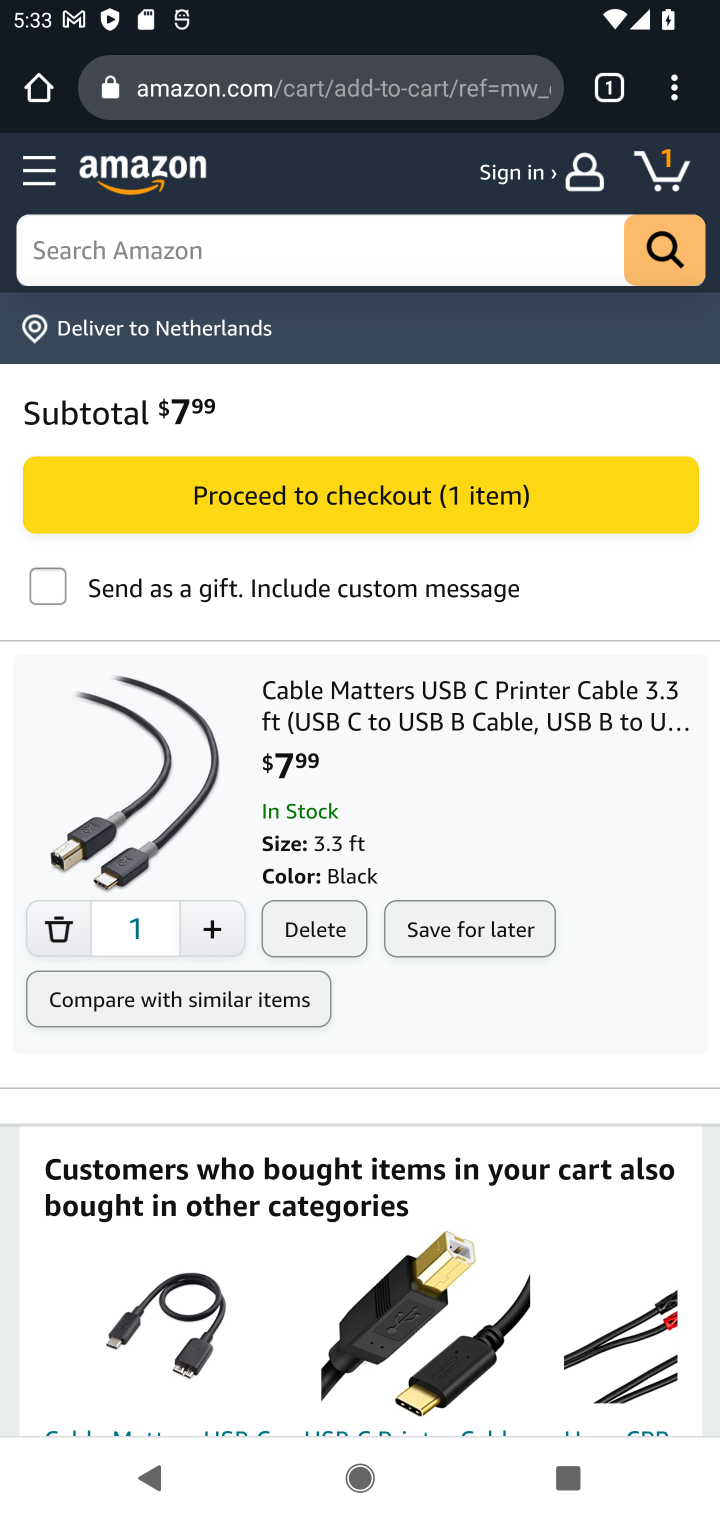
Step 31: click (555, 496)
Your task to perform on an android device: View the shopping cart on amazon.com. Add "usb-c to usb-b" to the cart on amazon.com, then select checkout. Image 32: 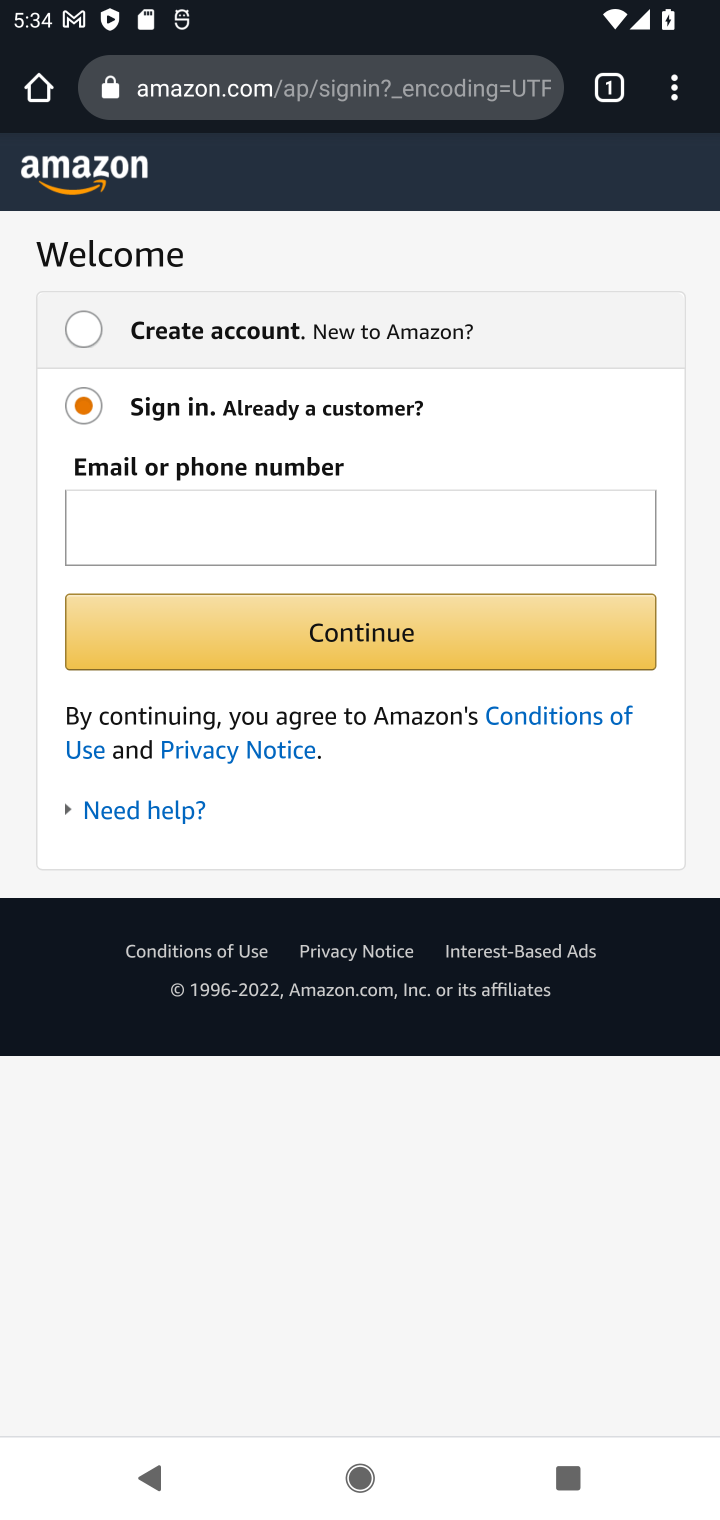
Step 32: task complete